Your task to perform on an android device: install app "Paramount+ | Peak Streaming" Image 0: 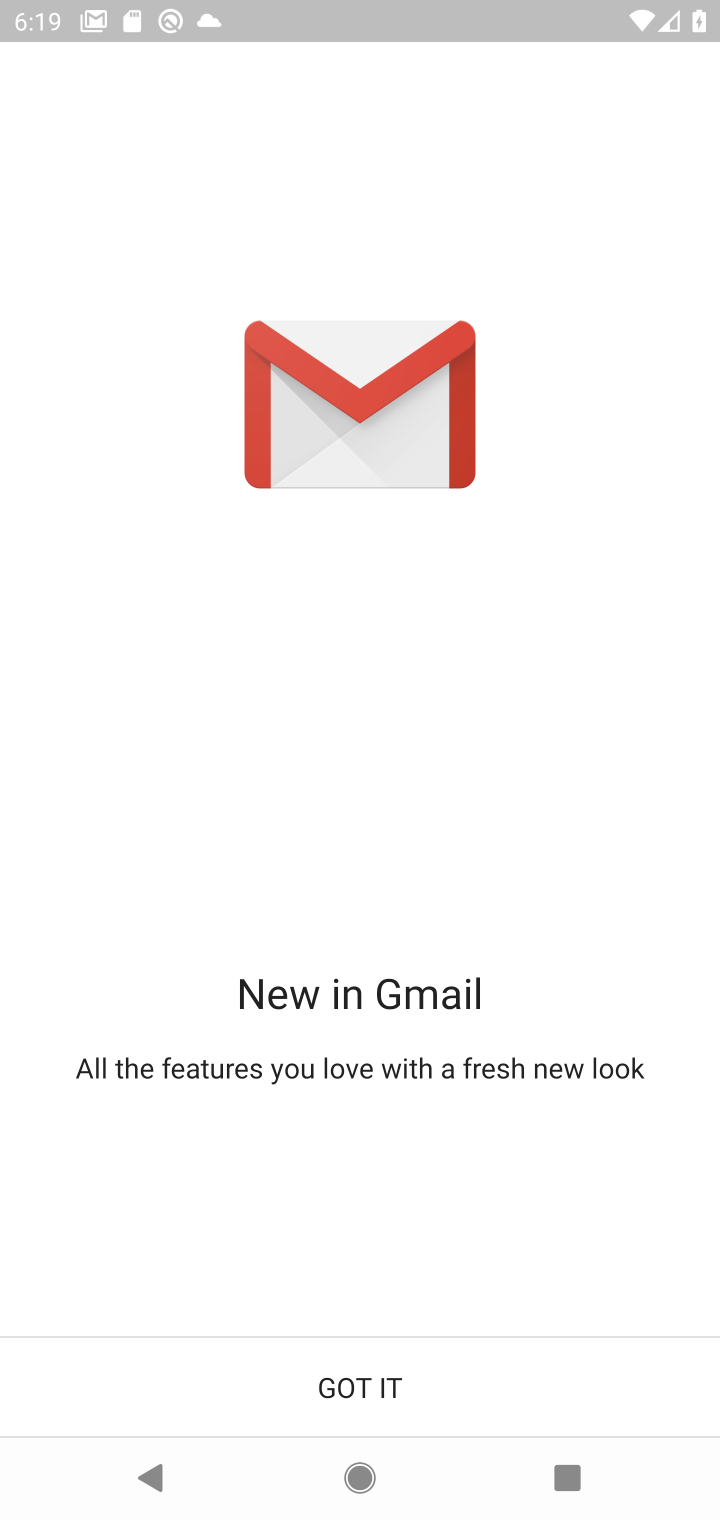
Step 0: drag from (475, 628) to (556, 367)
Your task to perform on an android device: install app "Paramount+ | Peak Streaming" Image 1: 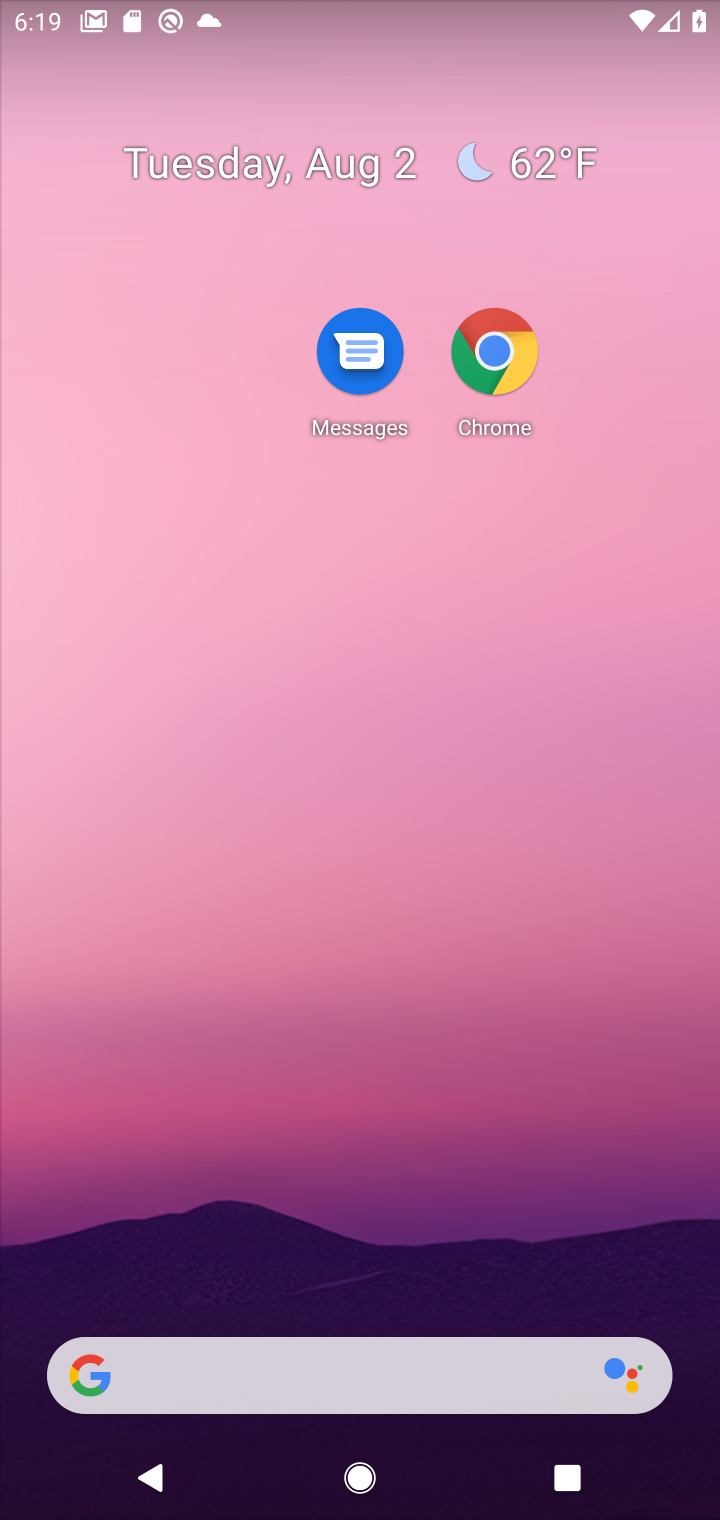
Step 1: drag from (362, 992) to (411, 246)
Your task to perform on an android device: install app "Paramount+ | Peak Streaming" Image 2: 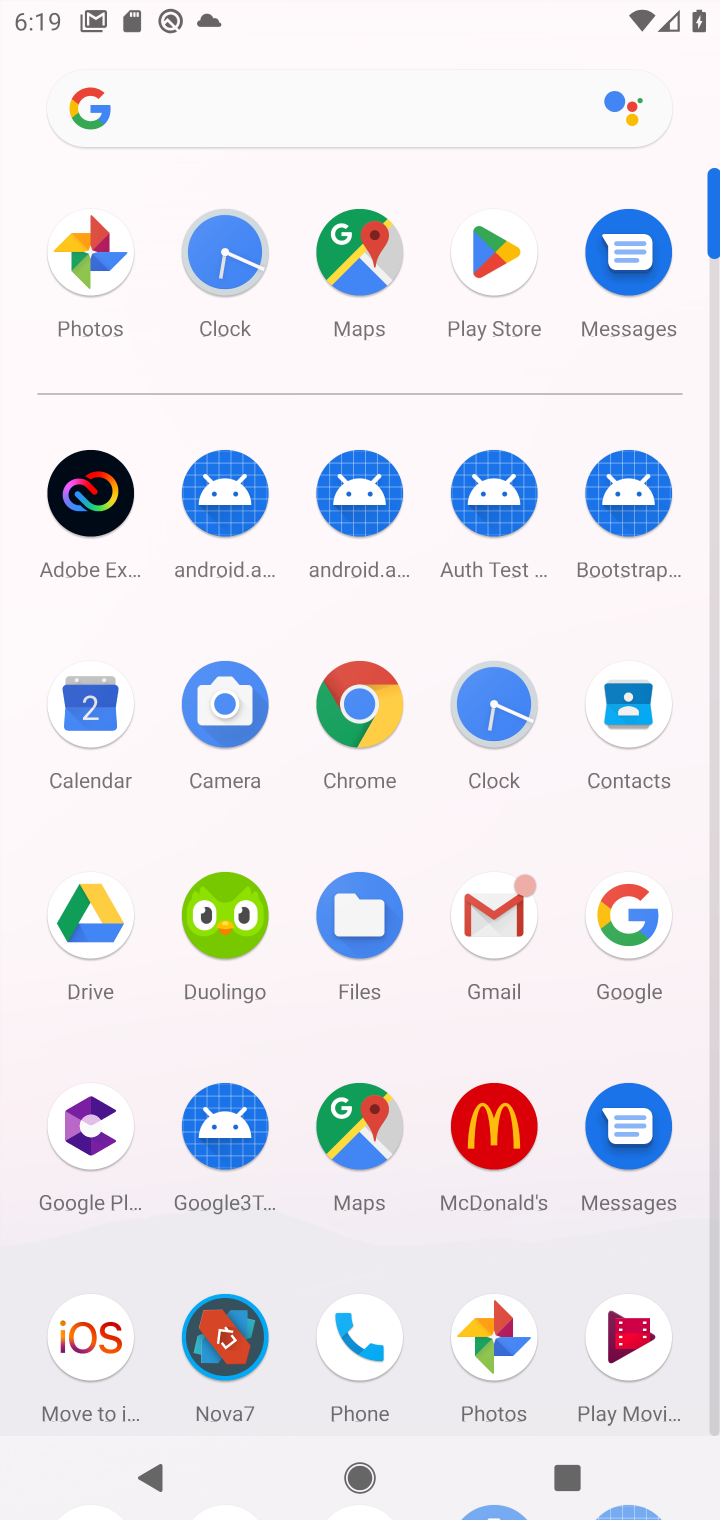
Step 2: click (496, 270)
Your task to perform on an android device: install app "Paramount+ | Peak Streaming" Image 3: 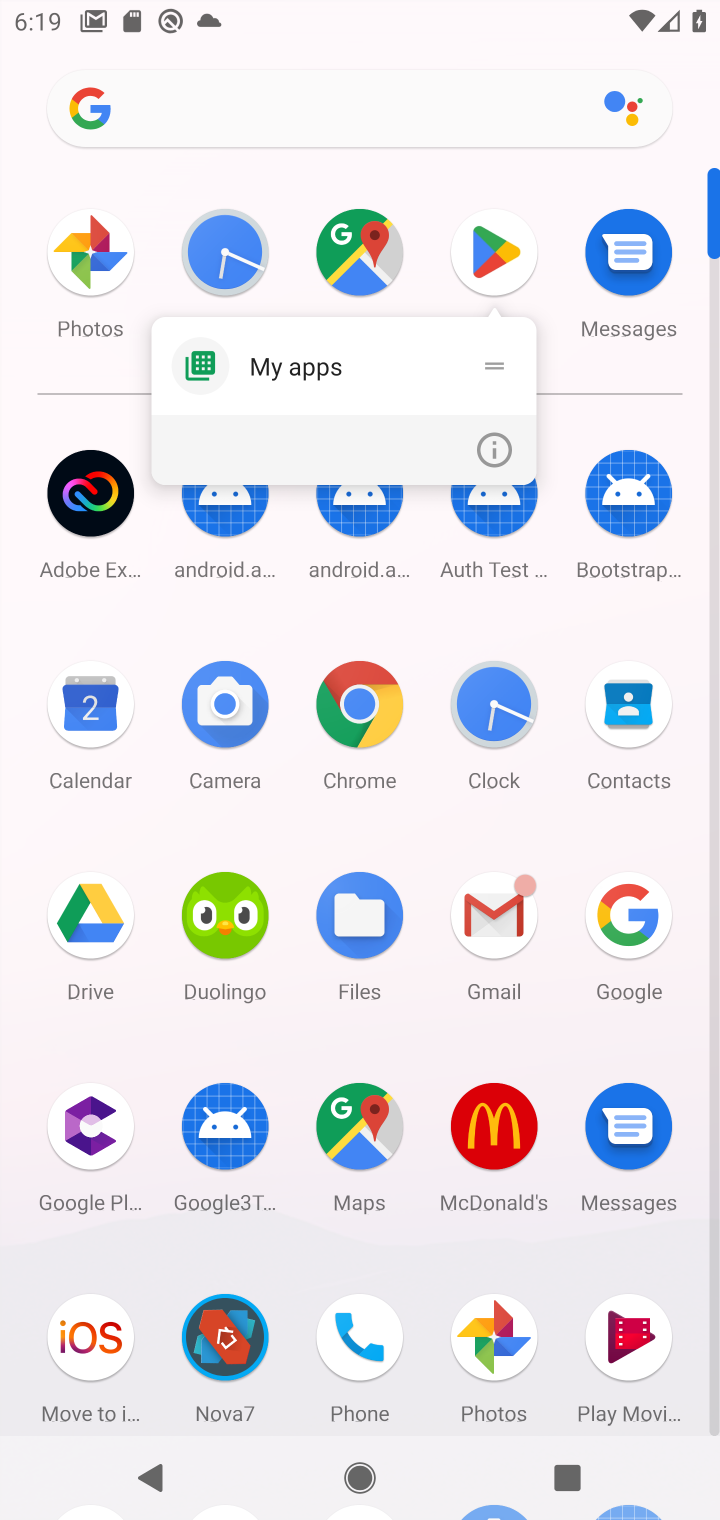
Step 3: click (481, 450)
Your task to perform on an android device: install app "Paramount+ | Peak Streaming" Image 4: 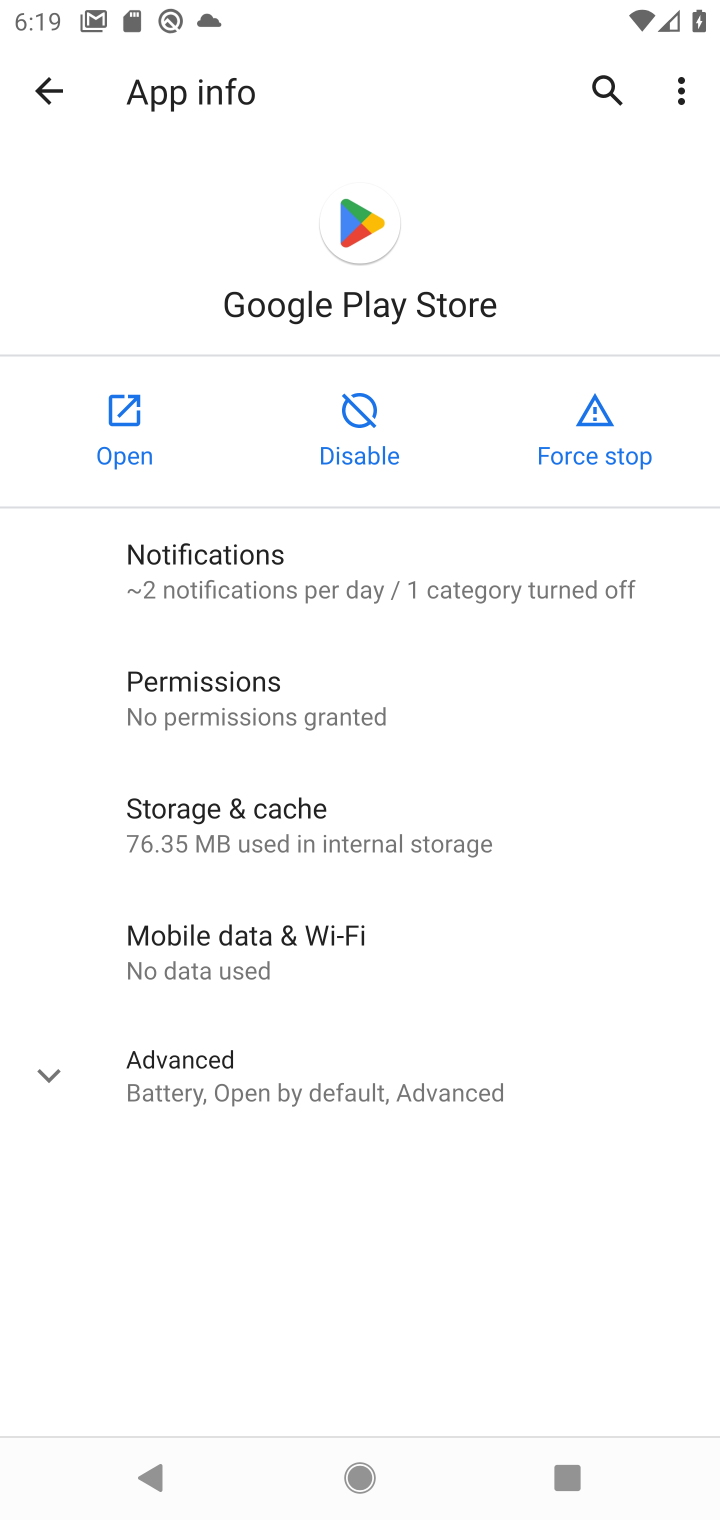
Step 4: click (111, 442)
Your task to perform on an android device: install app "Paramount+ | Peak Streaming" Image 5: 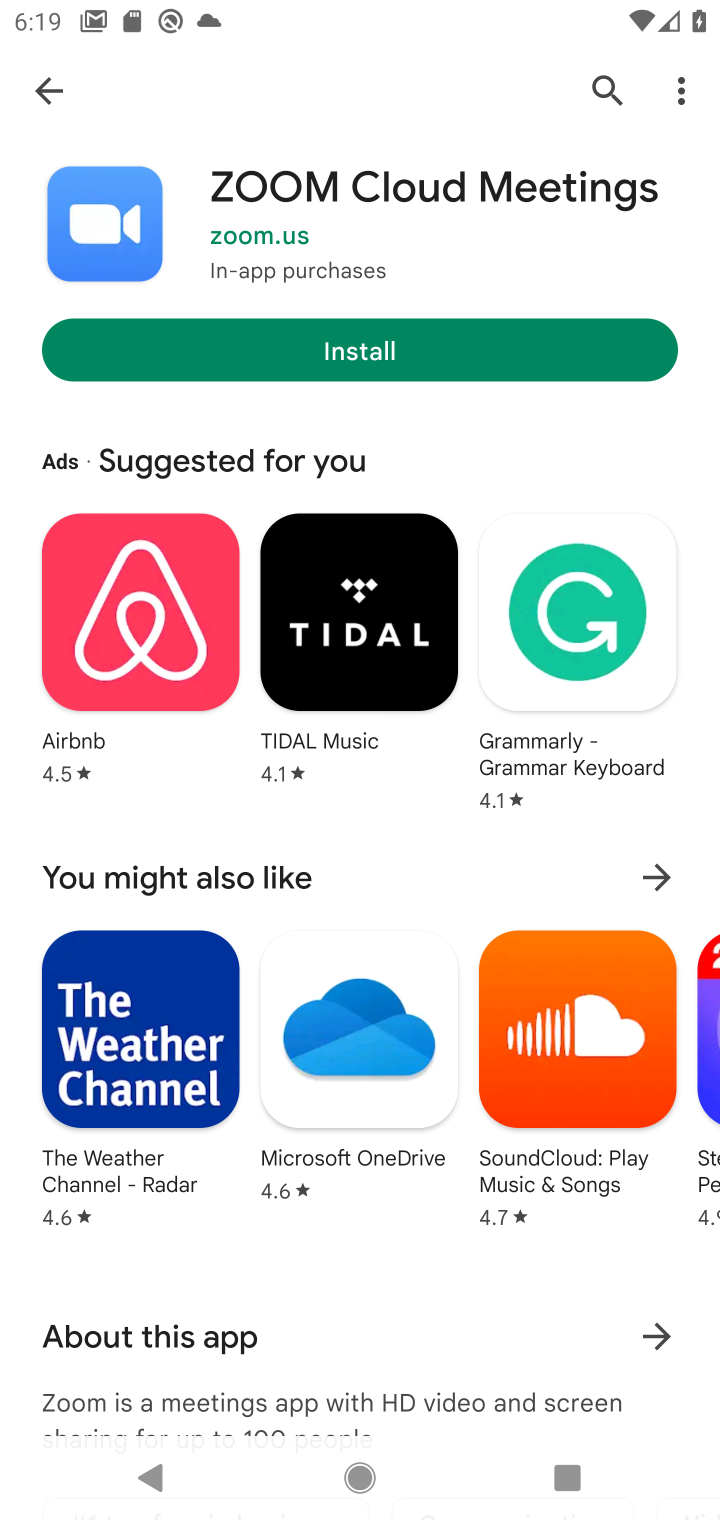
Step 5: click (605, 89)
Your task to perform on an android device: install app "Paramount+ | Peak Streaming" Image 6: 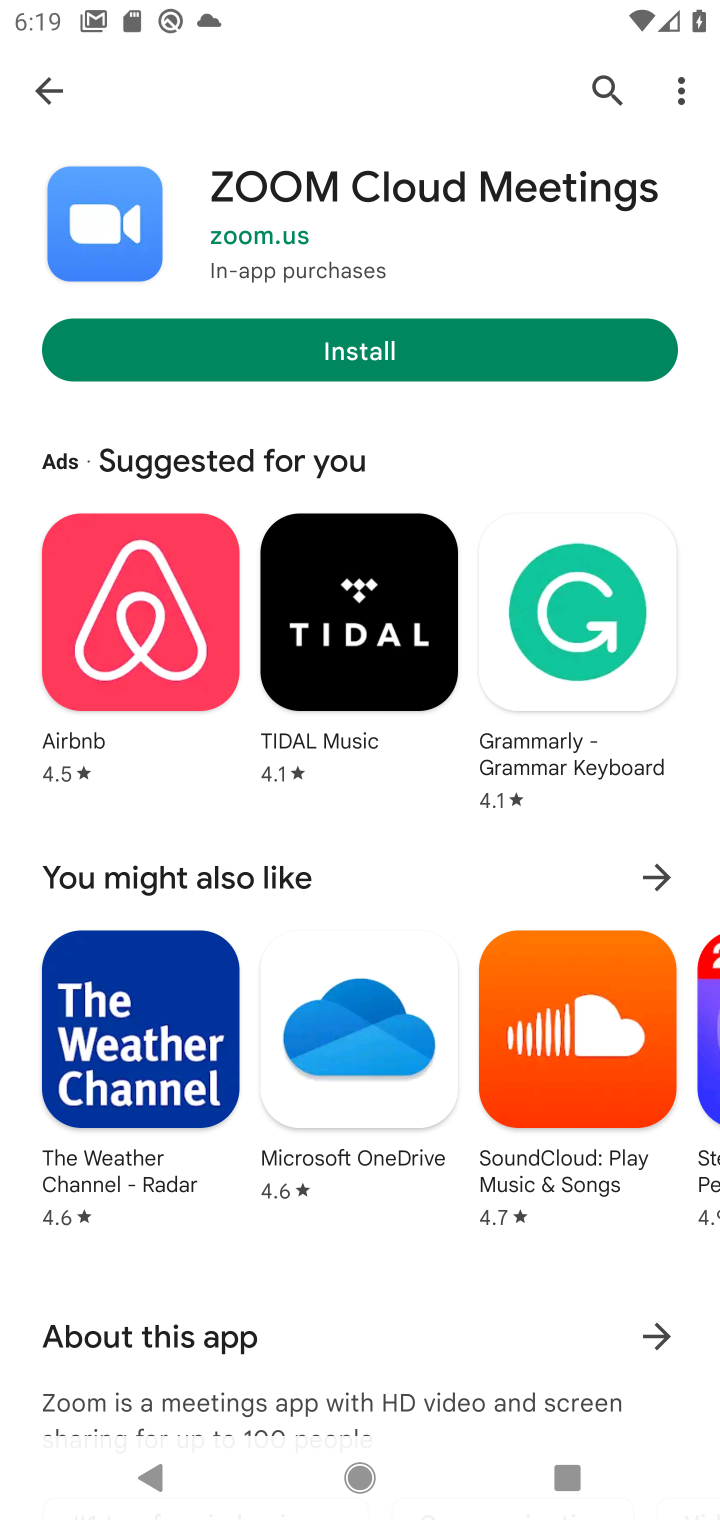
Step 6: click (589, 87)
Your task to perform on an android device: install app "Paramount+ | Peak Streaming" Image 7: 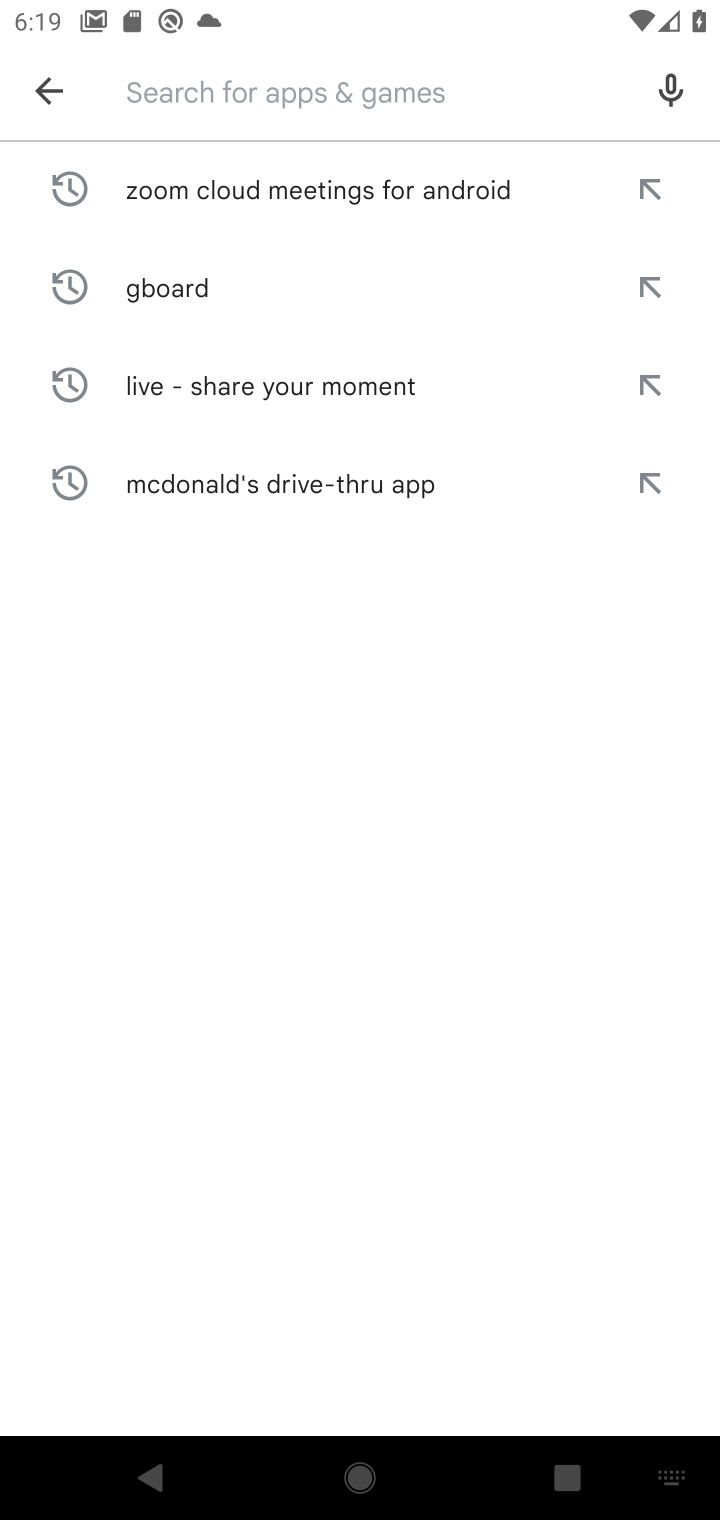
Step 7: click (224, 96)
Your task to perform on an android device: install app "Paramount+ | Peak Streaming" Image 8: 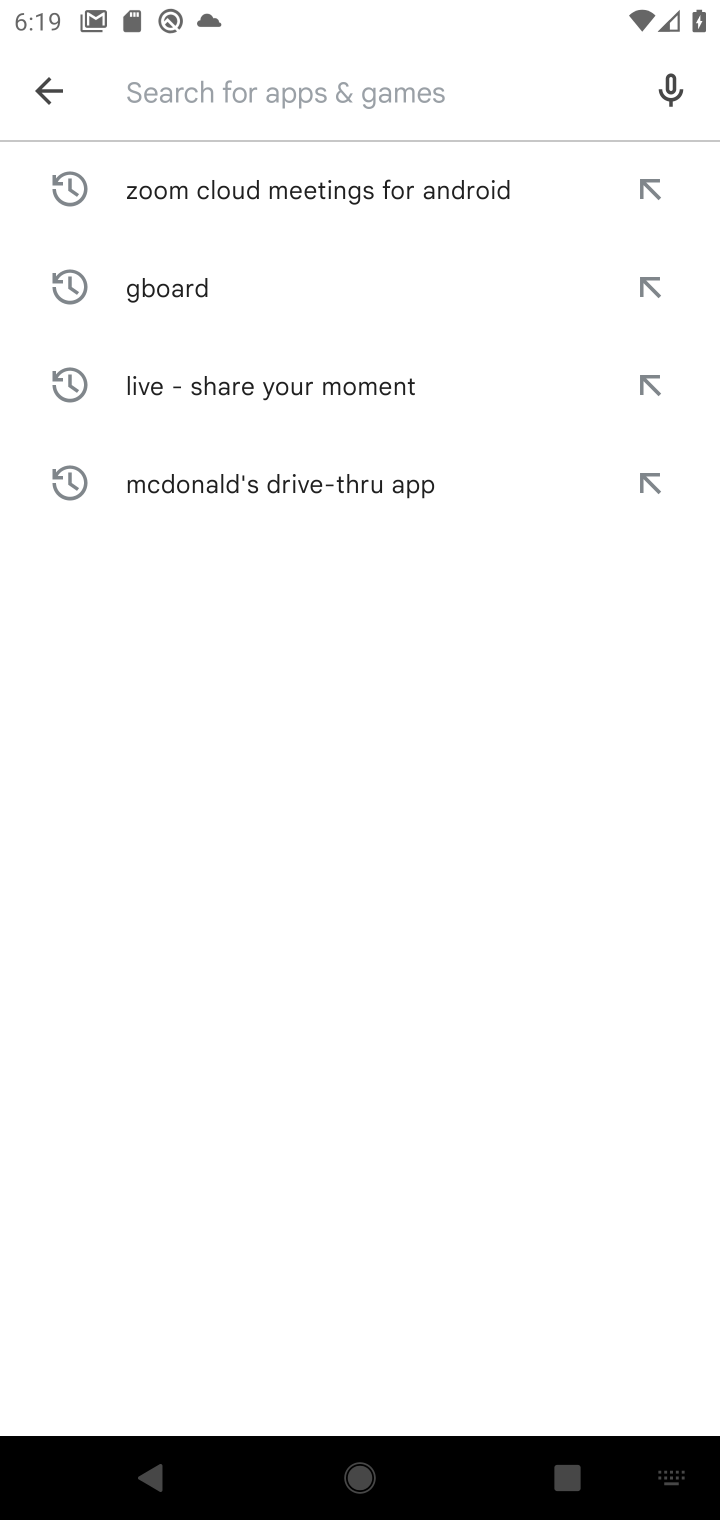
Step 8: type "Paramount+ | Peak Streaming"
Your task to perform on an android device: install app "Paramount+ | Peak Streaming" Image 9: 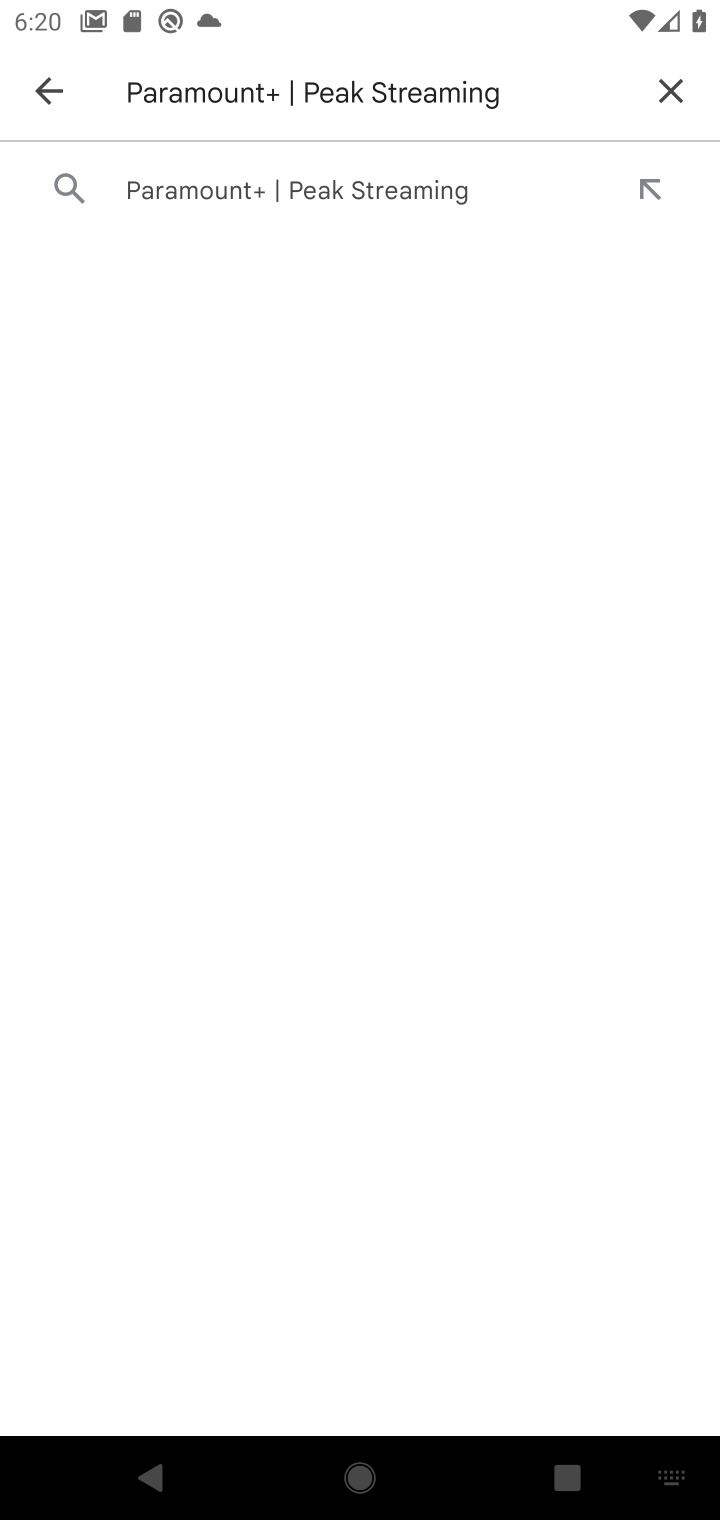
Step 9: click (206, 188)
Your task to perform on an android device: install app "Paramount+ | Peak Streaming" Image 10: 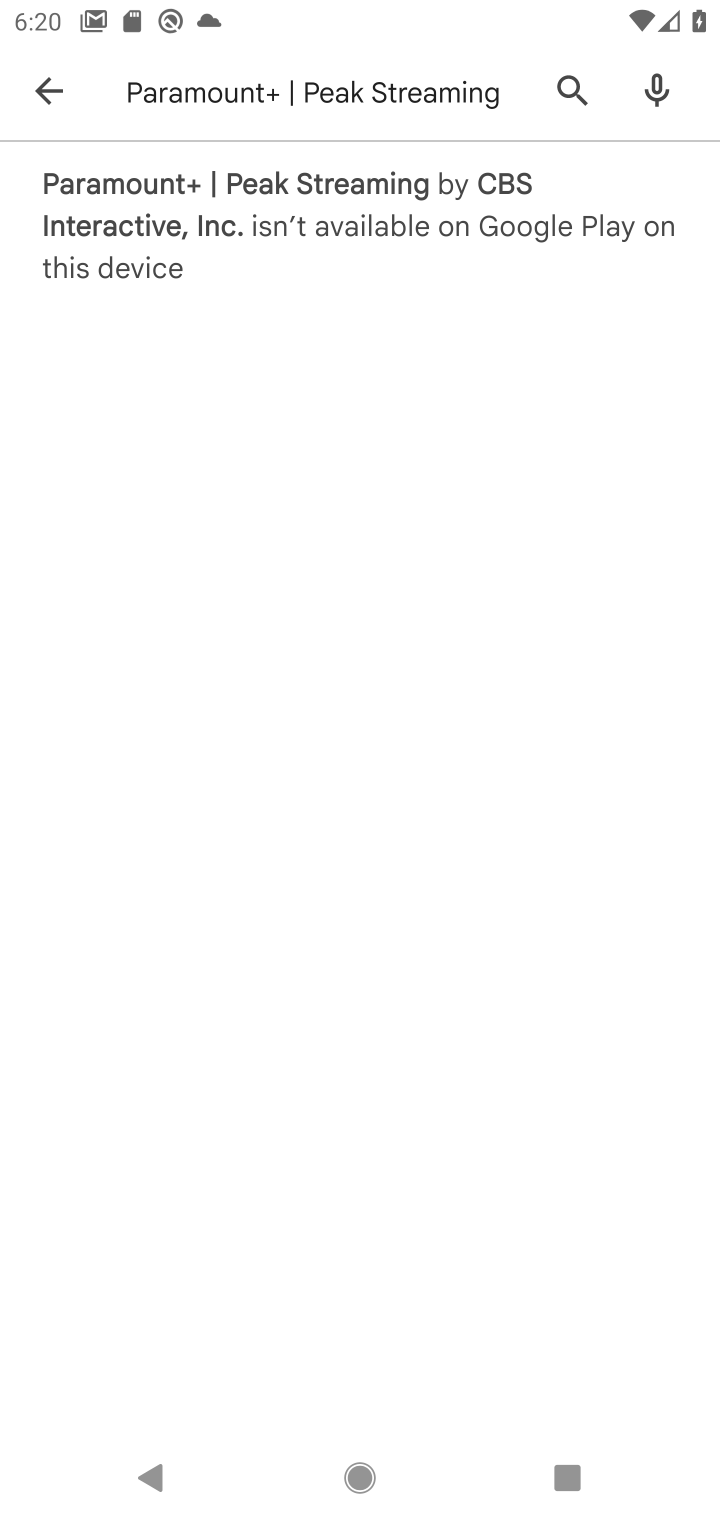
Step 10: click (241, 233)
Your task to perform on an android device: install app "Paramount+ | Peak Streaming" Image 11: 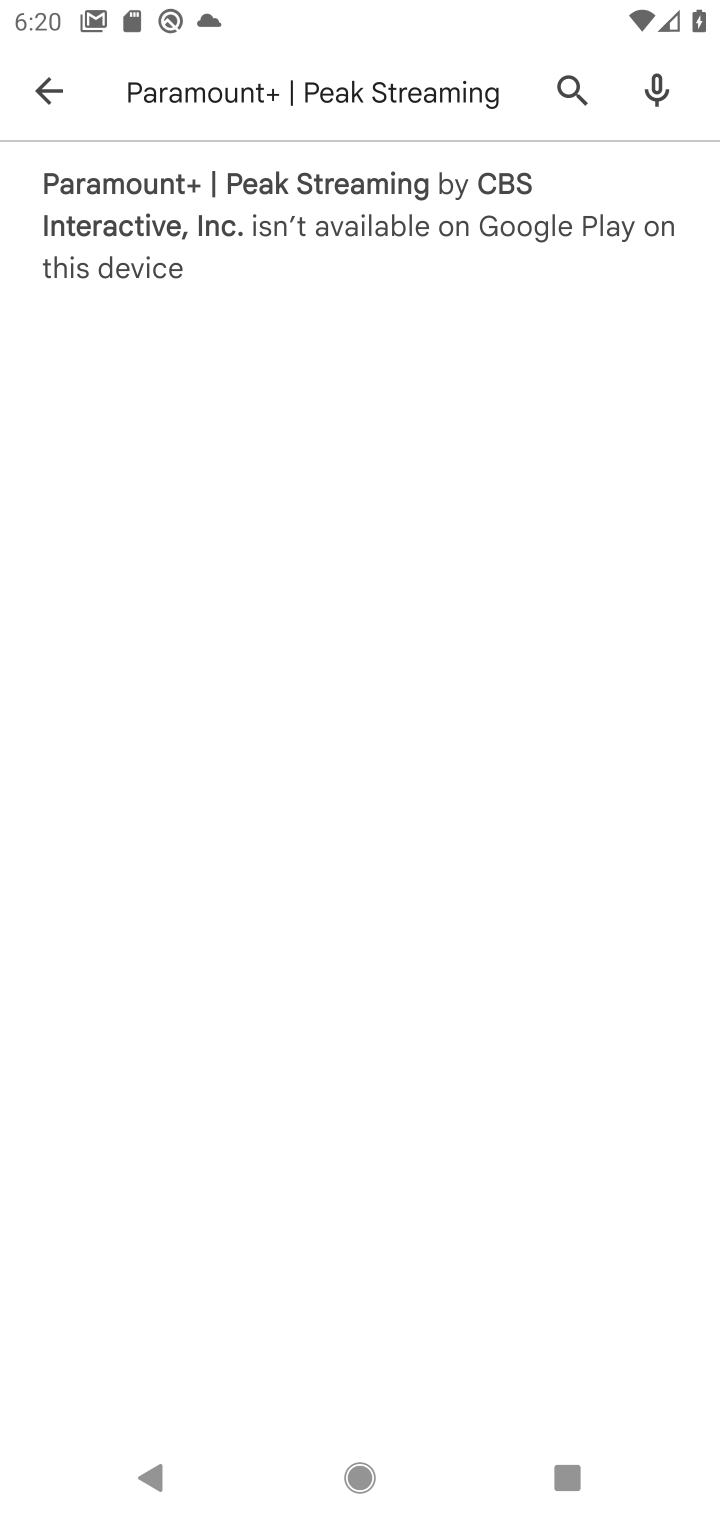
Step 11: click (220, 212)
Your task to perform on an android device: install app "Paramount+ | Peak Streaming" Image 12: 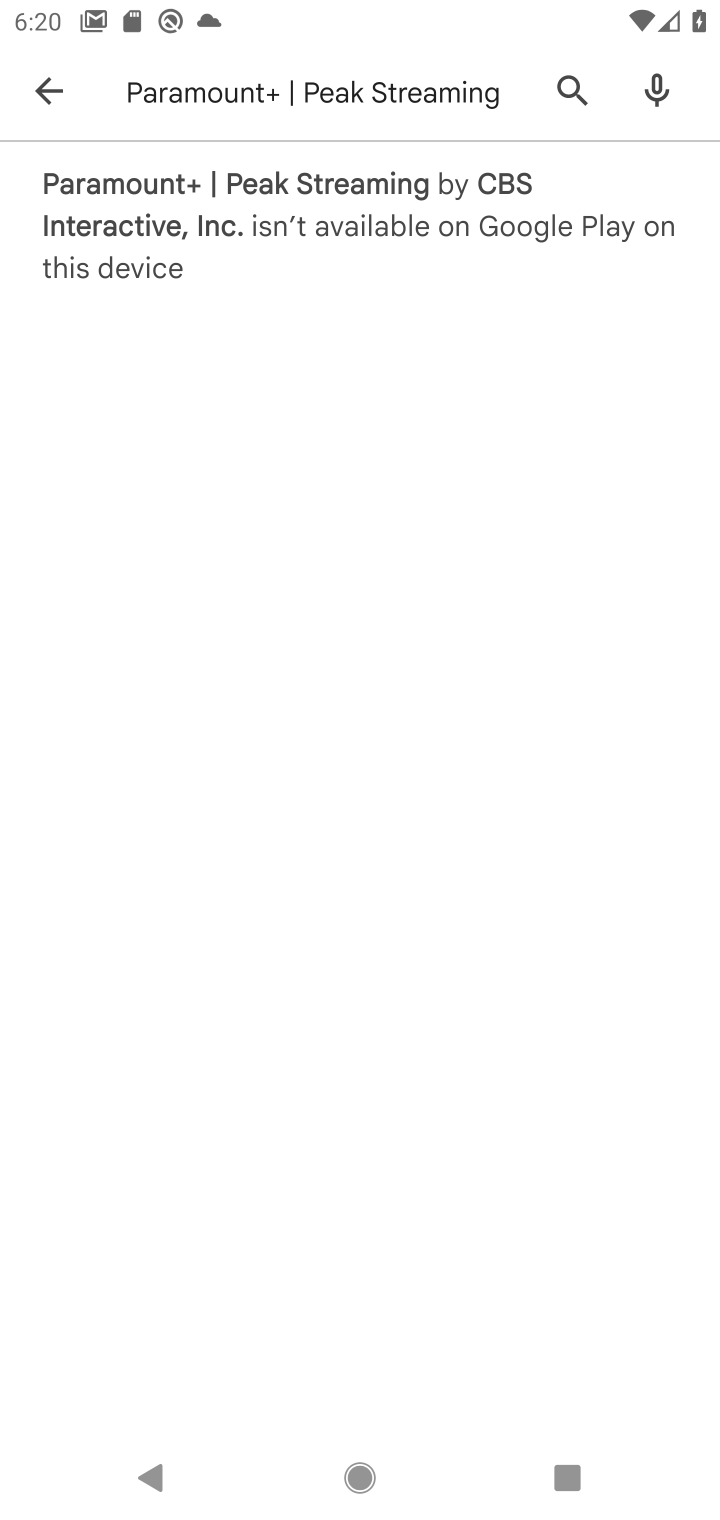
Step 12: click (234, 215)
Your task to perform on an android device: install app "Paramount+ | Peak Streaming" Image 13: 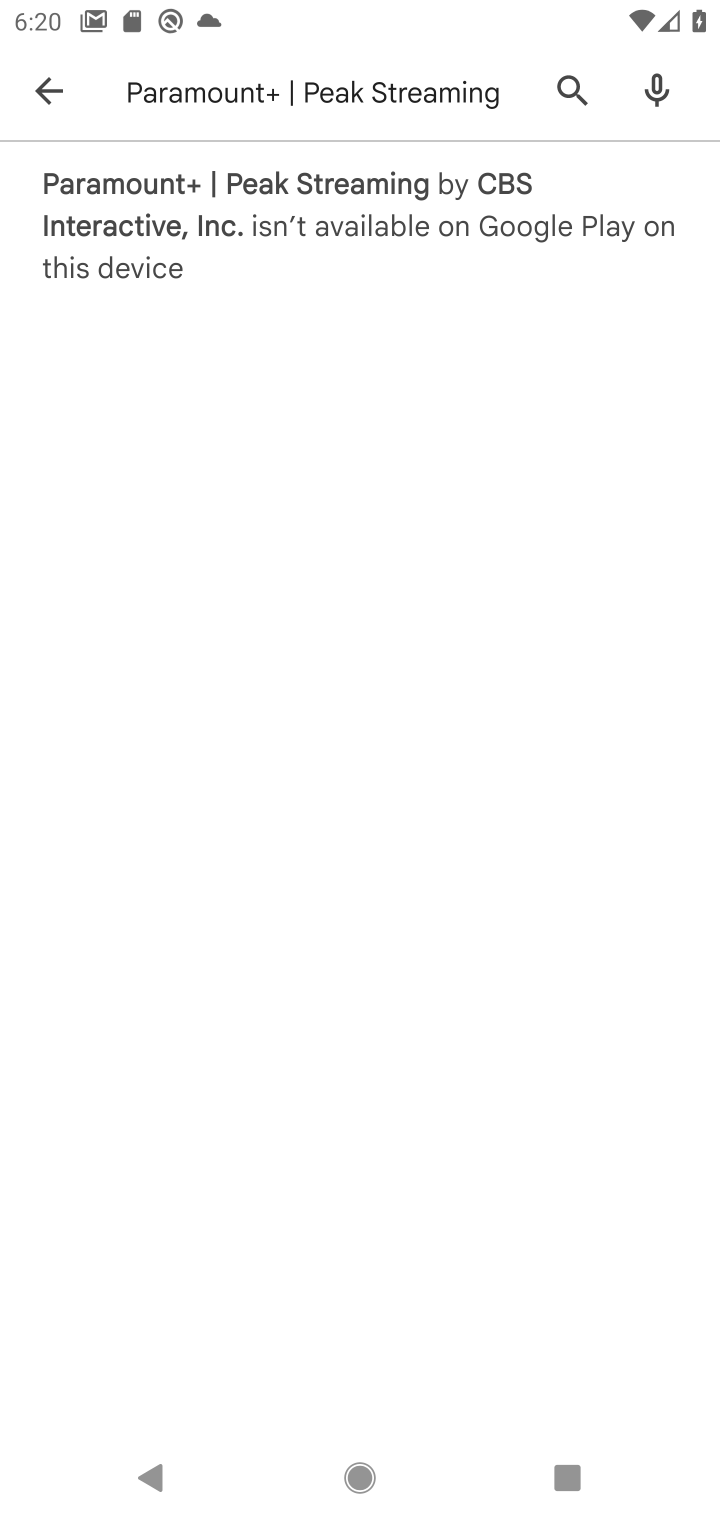
Step 13: click (131, 181)
Your task to perform on an android device: install app "Paramount+ | Peak Streaming" Image 14: 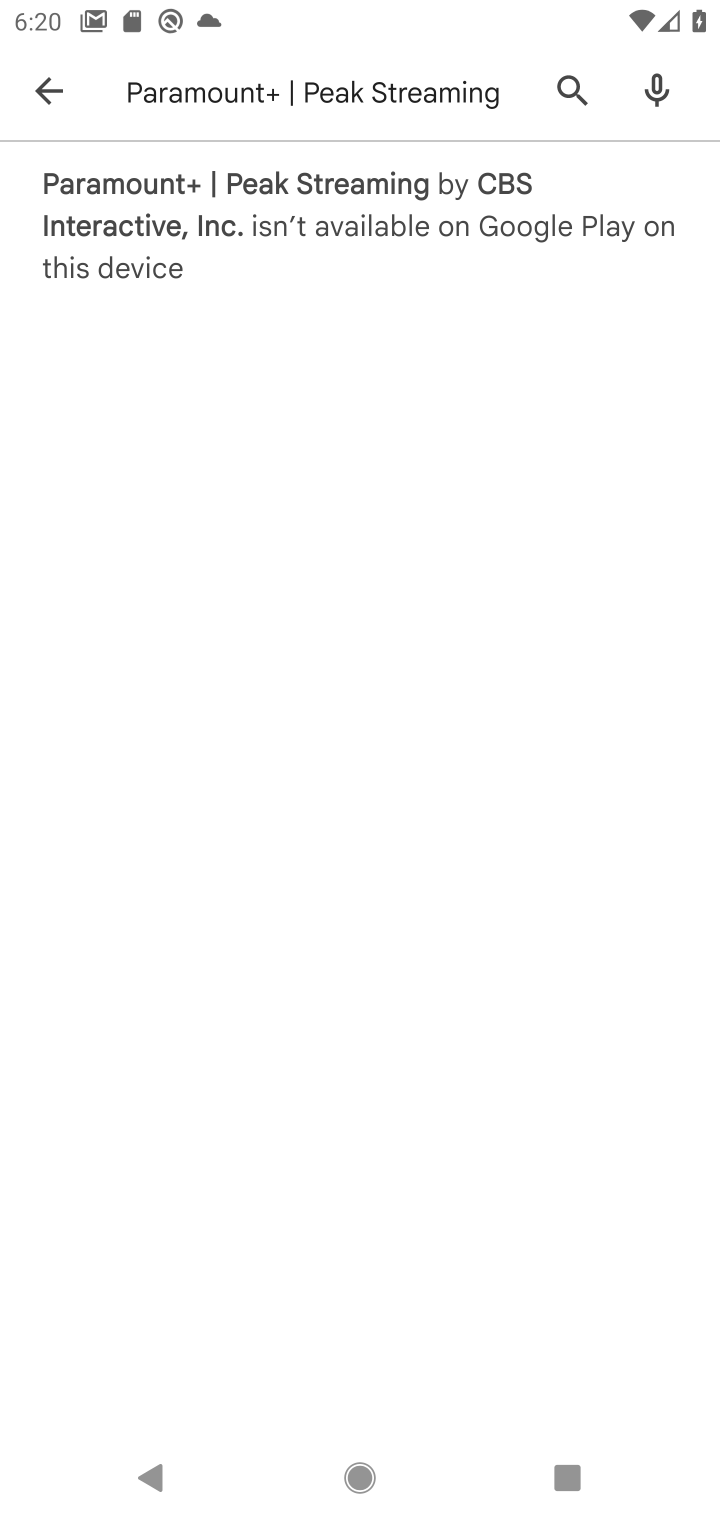
Step 14: click (291, 214)
Your task to perform on an android device: install app "Paramount+ | Peak Streaming" Image 15: 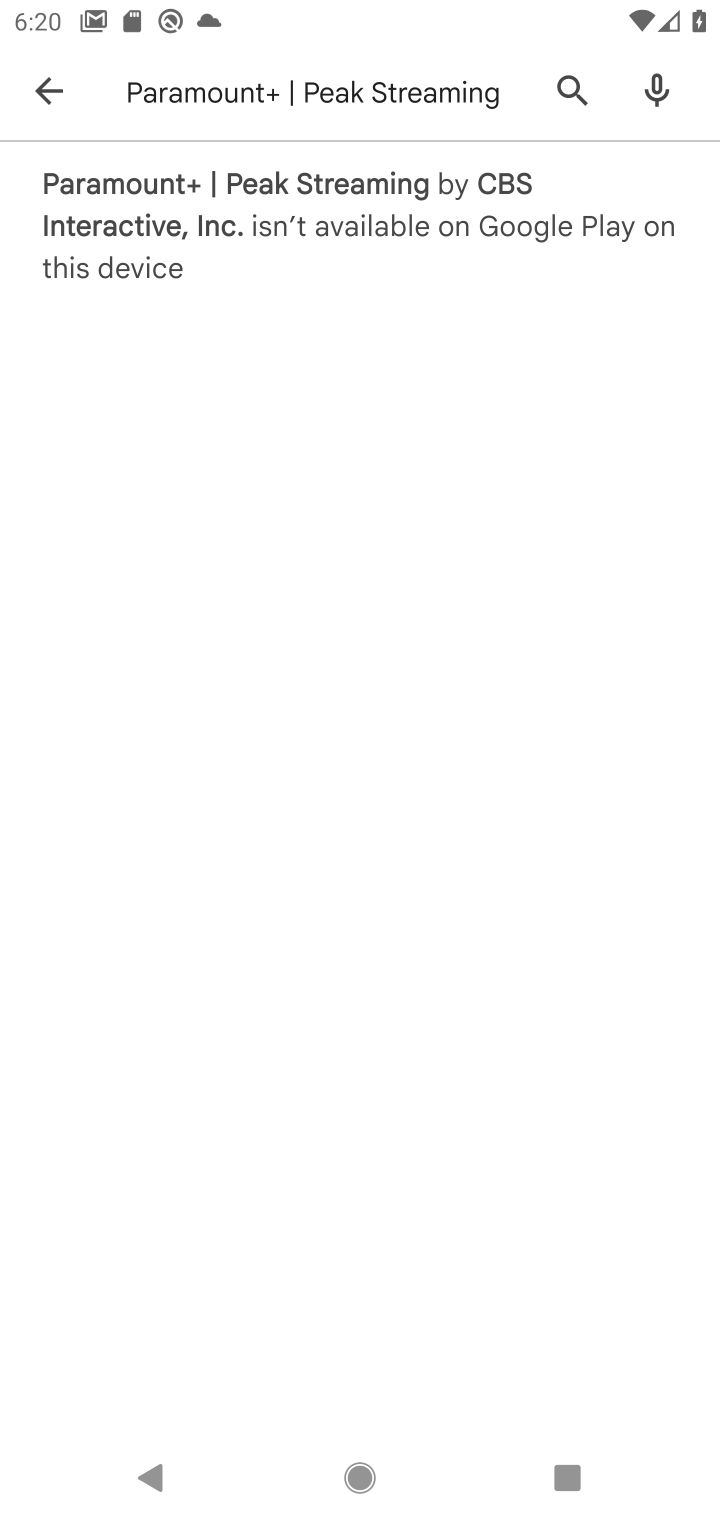
Step 15: click (192, 196)
Your task to perform on an android device: install app "Paramount+ | Peak Streaming" Image 16: 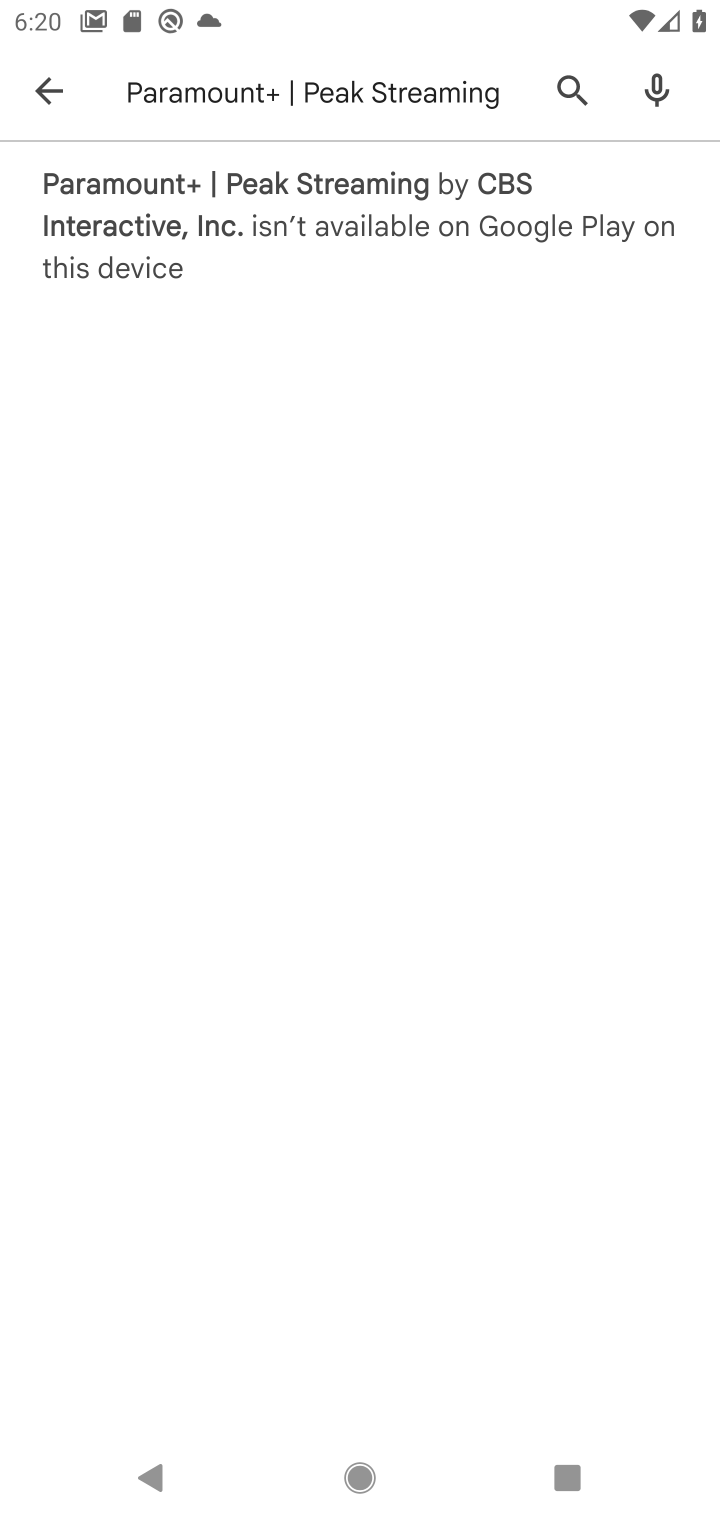
Step 16: click (201, 196)
Your task to perform on an android device: install app "Paramount+ | Peak Streaming" Image 17: 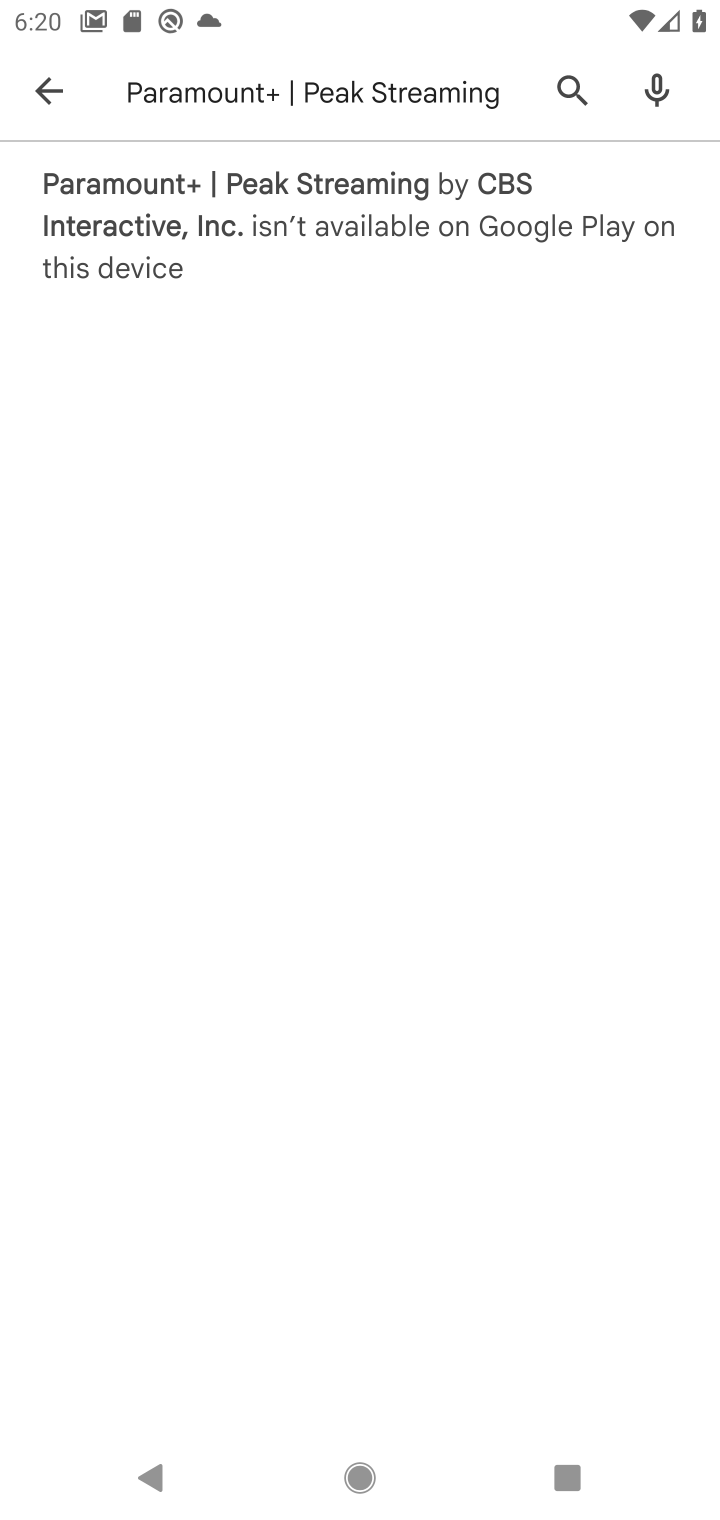
Step 17: click (243, 187)
Your task to perform on an android device: install app "Paramount+ | Peak Streaming" Image 18: 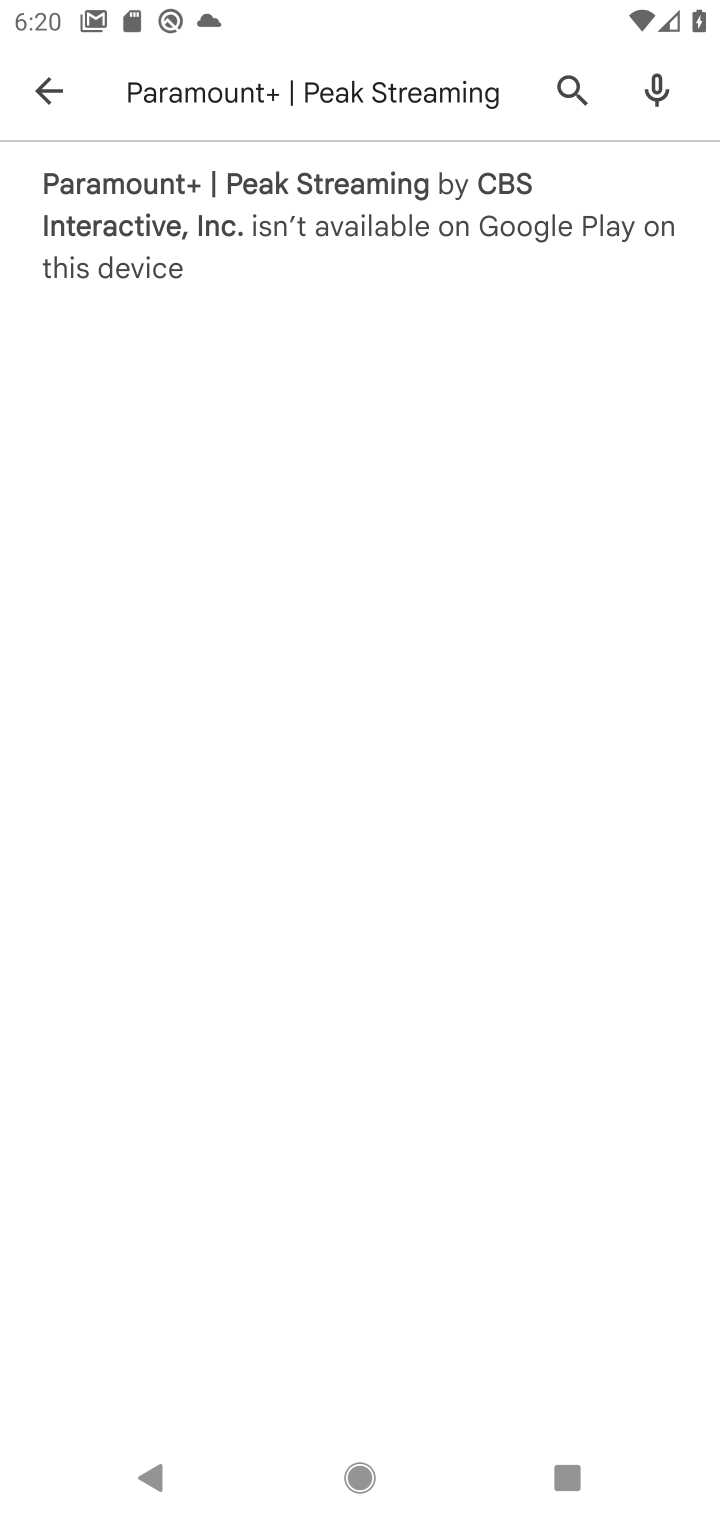
Step 18: click (243, 187)
Your task to perform on an android device: install app "Paramount+ | Peak Streaming" Image 19: 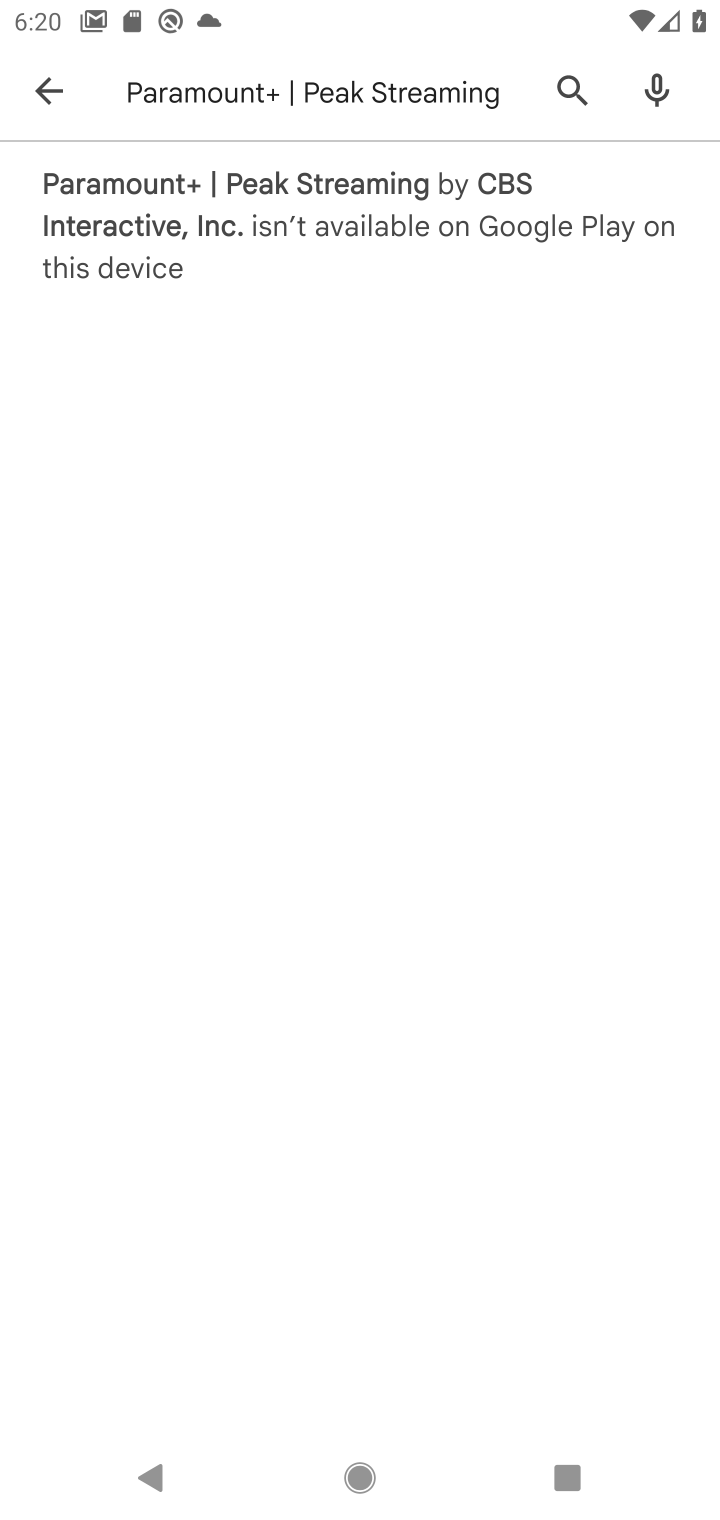
Step 19: click (179, 194)
Your task to perform on an android device: install app "Paramount+ | Peak Streaming" Image 20: 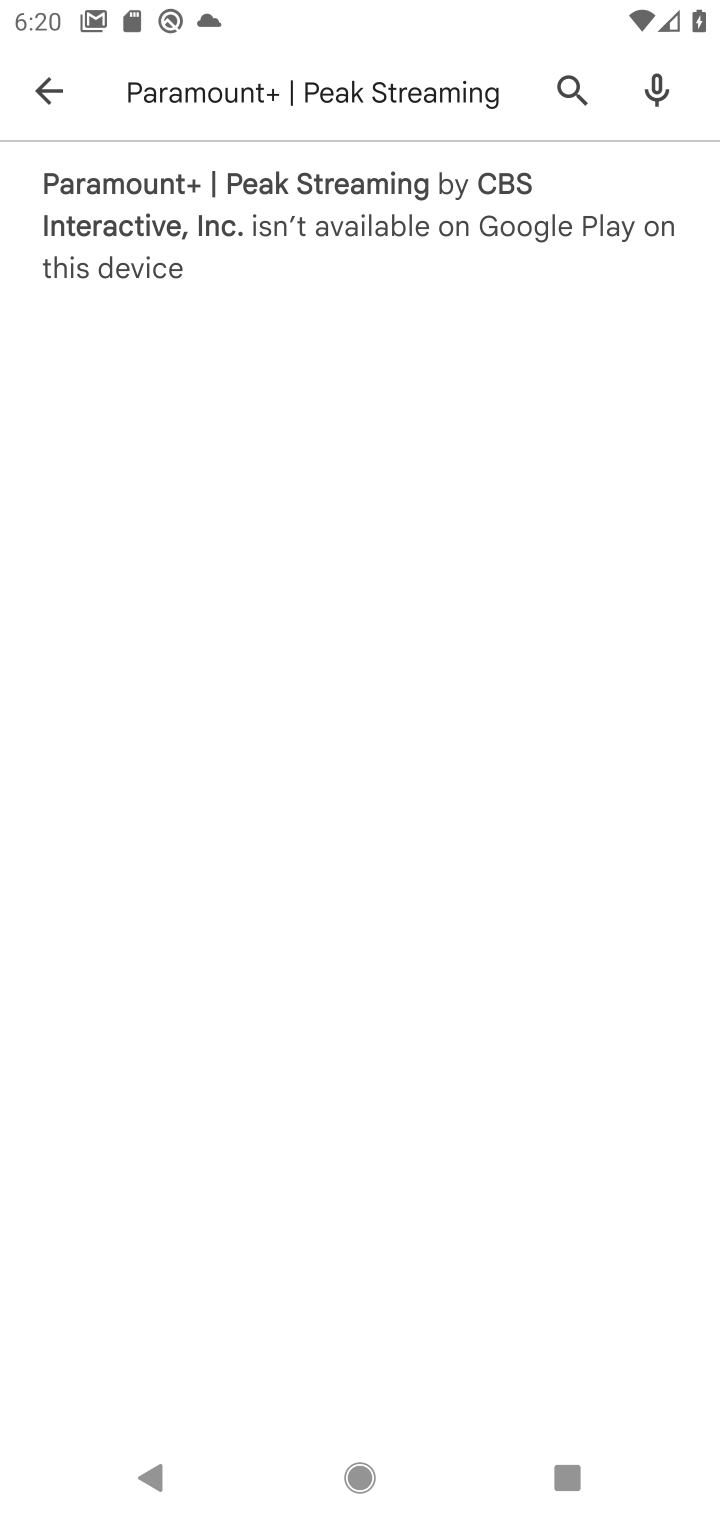
Step 20: click (181, 201)
Your task to perform on an android device: install app "Paramount+ | Peak Streaming" Image 21: 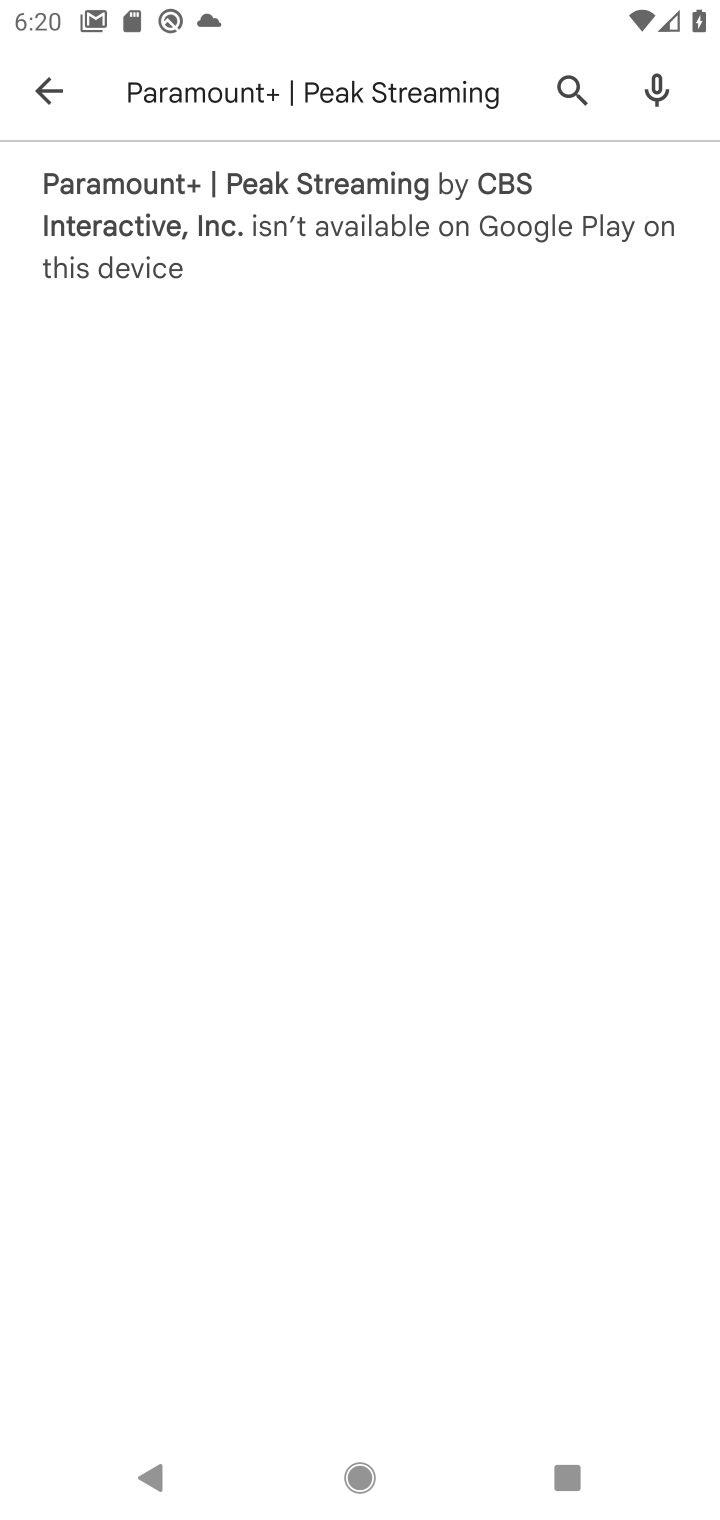
Step 21: click (146, 217)
Your task to perform on an android device: install app "Paramount+ | Peak Streaming" Image 22: 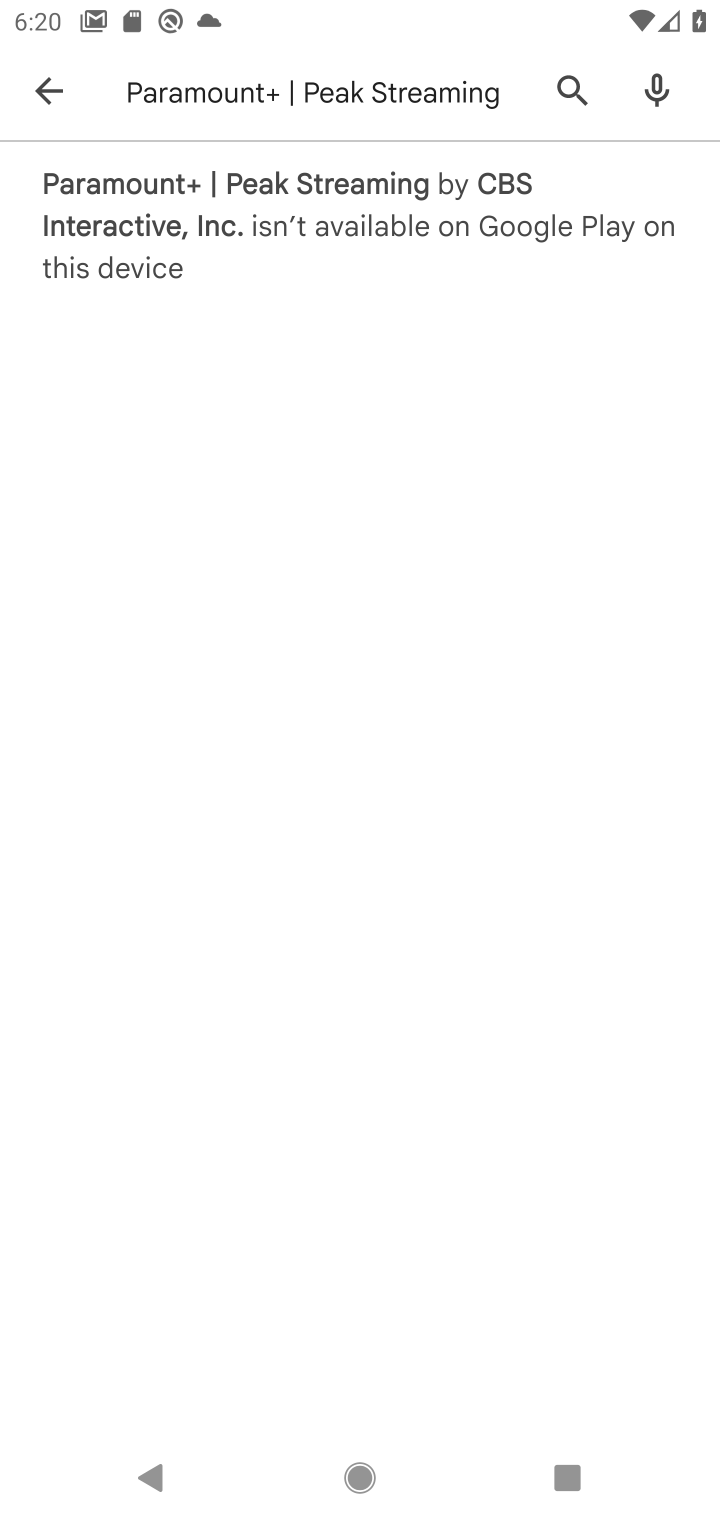
Step 22: click (146, 217)
Your task to perform on an android device: install app "Paramount+ | Peak Streaming" Image 23: 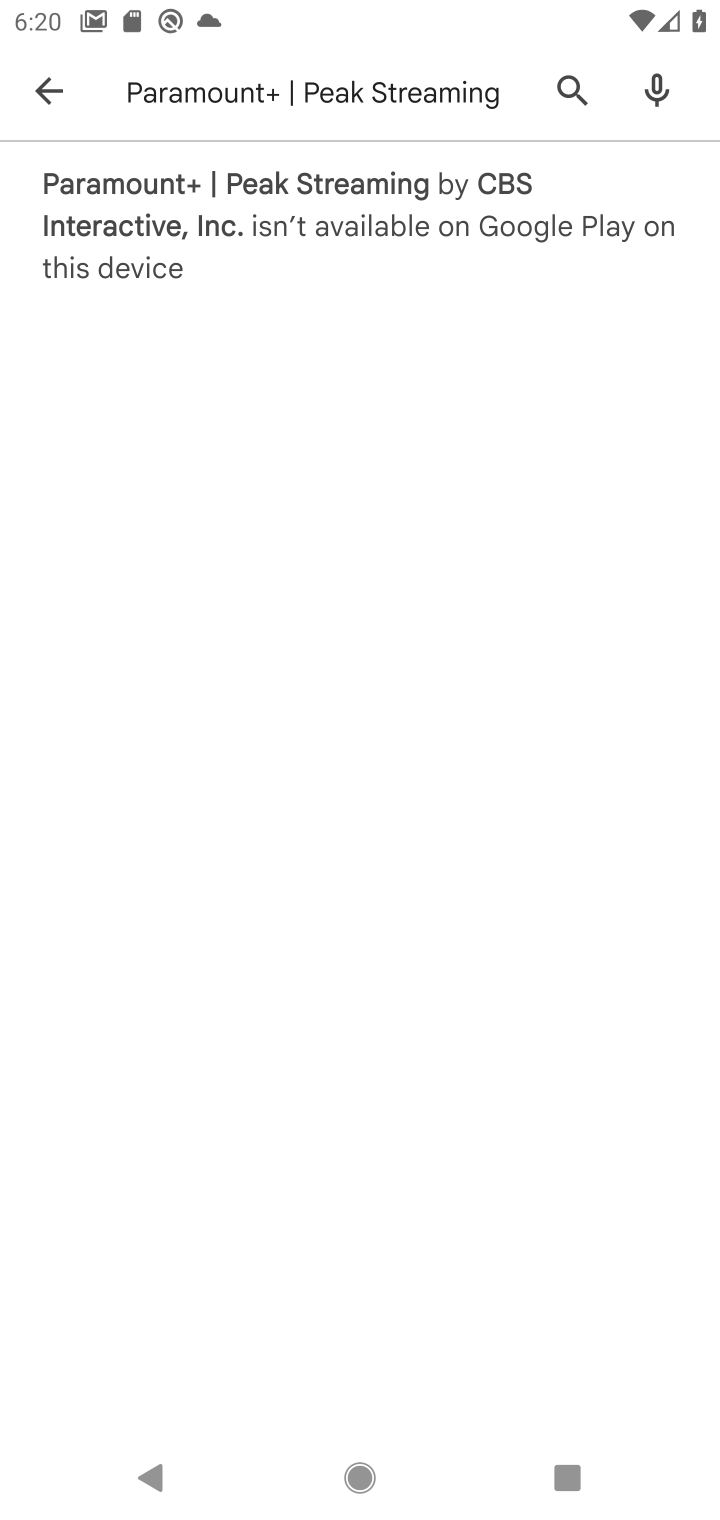
Step 23: click (146, 217)
Your task to perform on an android device: install app "Paramount+ | Peak Streaming" Image 24: 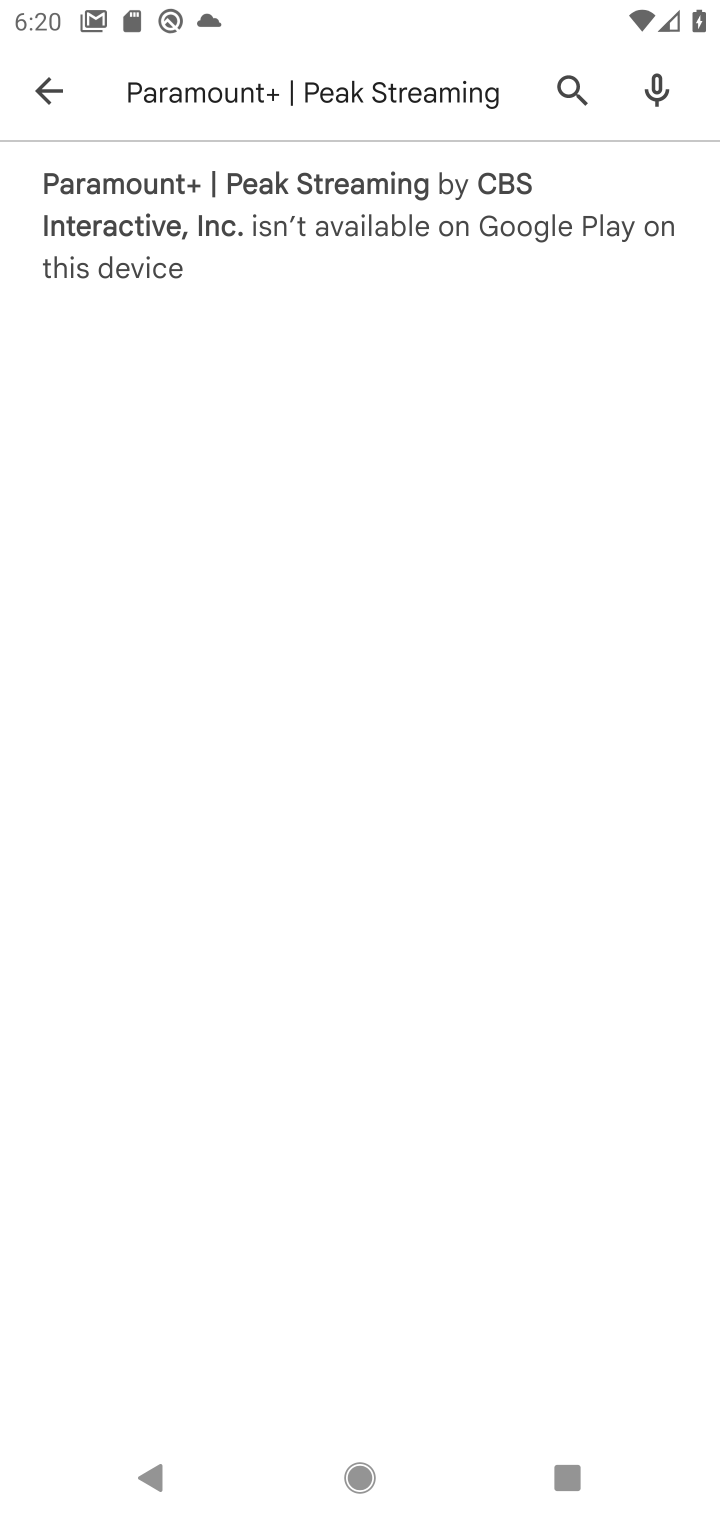
Step 24: click (166, 215)
Your task to perform on an android device: install app "Paramount+ | Peak Streaming" Image 25: 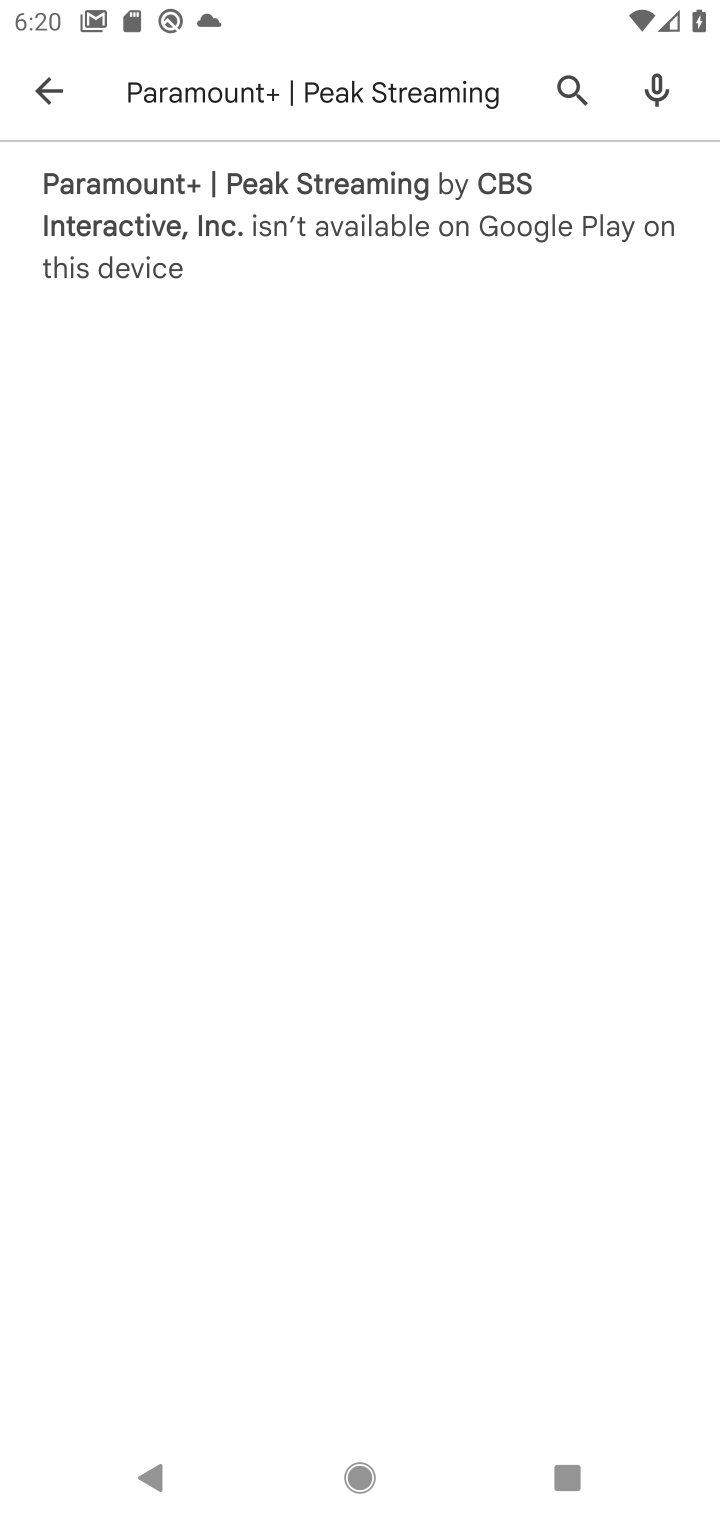
Step 25: click (169, 217)
Your task to perform on an android device: install app "Paramount+ | Peak Streaming" Image 26: 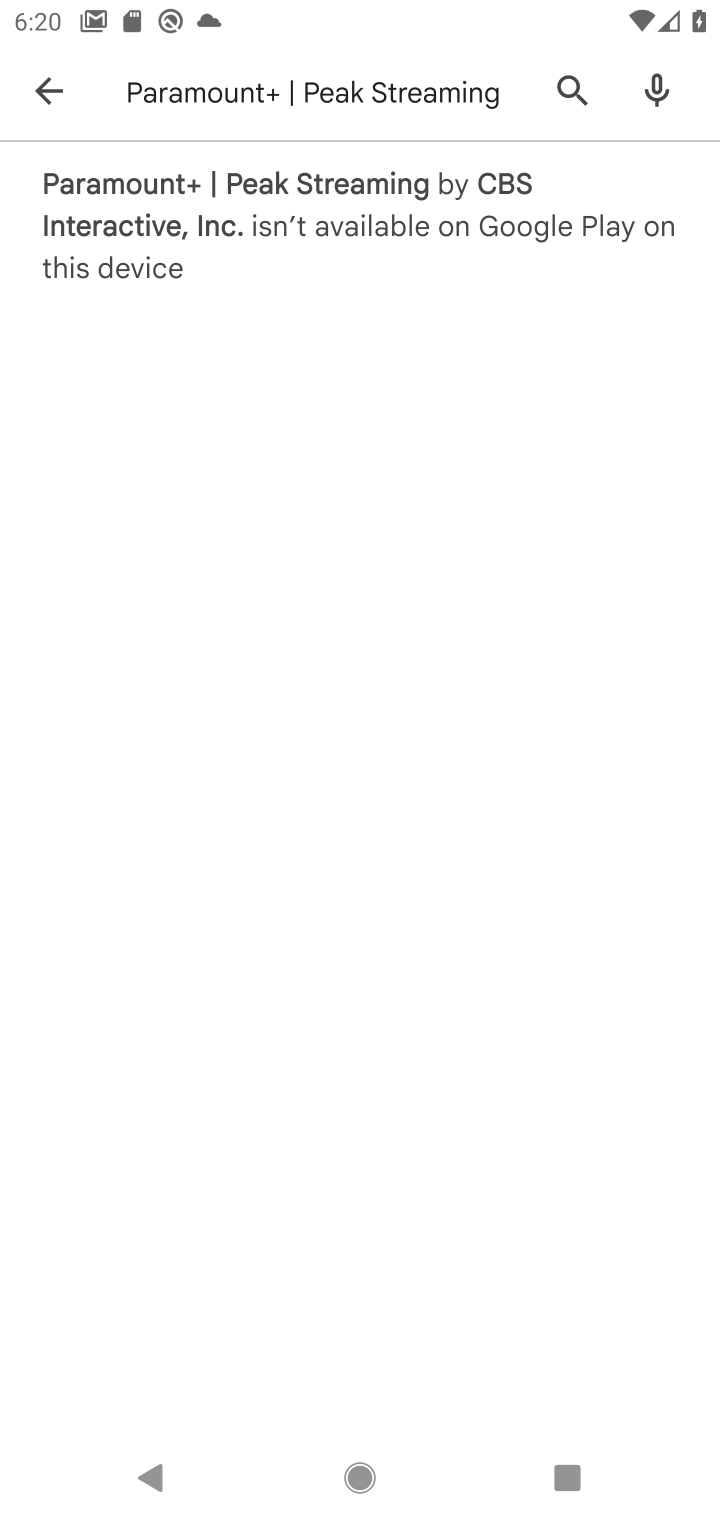
Step 26: click (169, 217)
Your task to perform on an android device: install app "Paramount+ | Peak Streaming" Image 27: 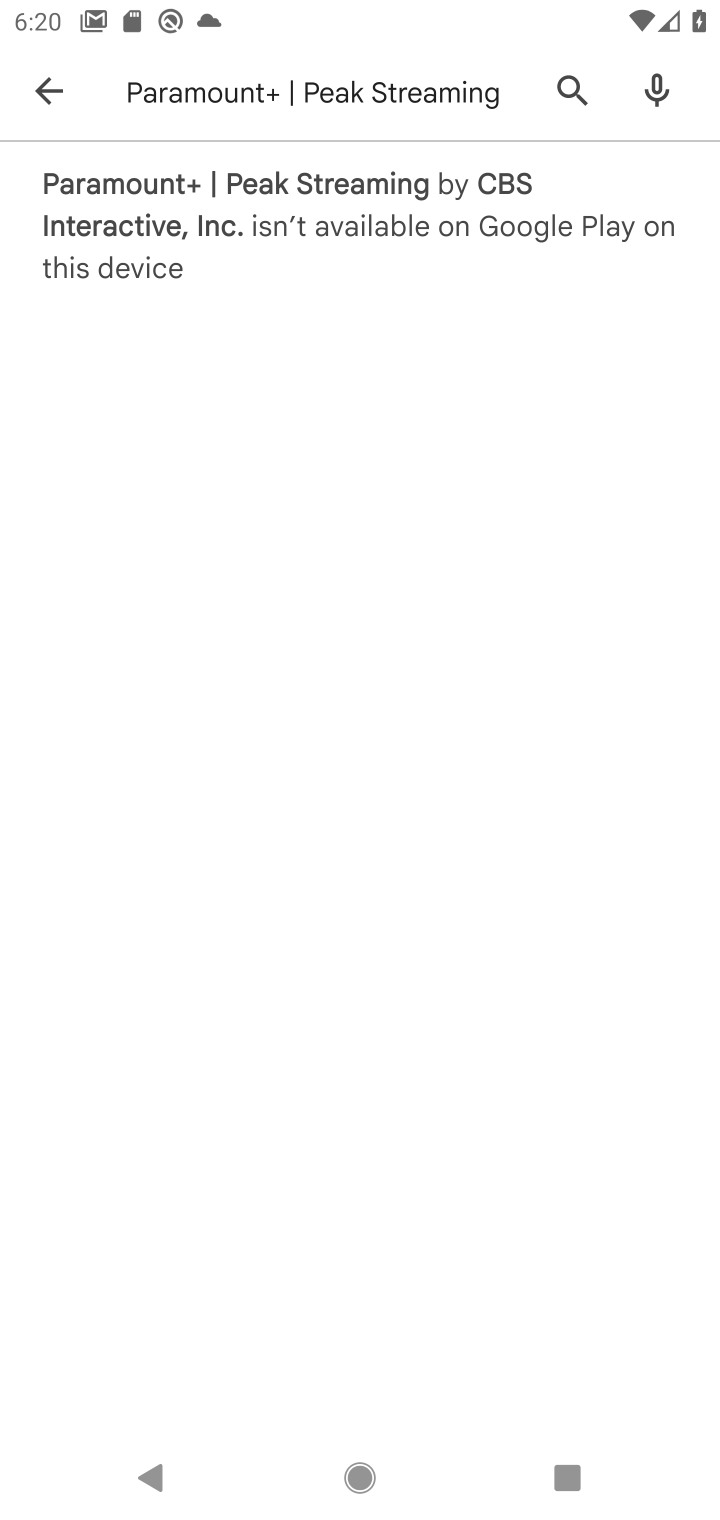
Step 27: click (225, 184)
Your task to perform on an android device: install app "Paramount+ | Peak Streaming" Image 28: 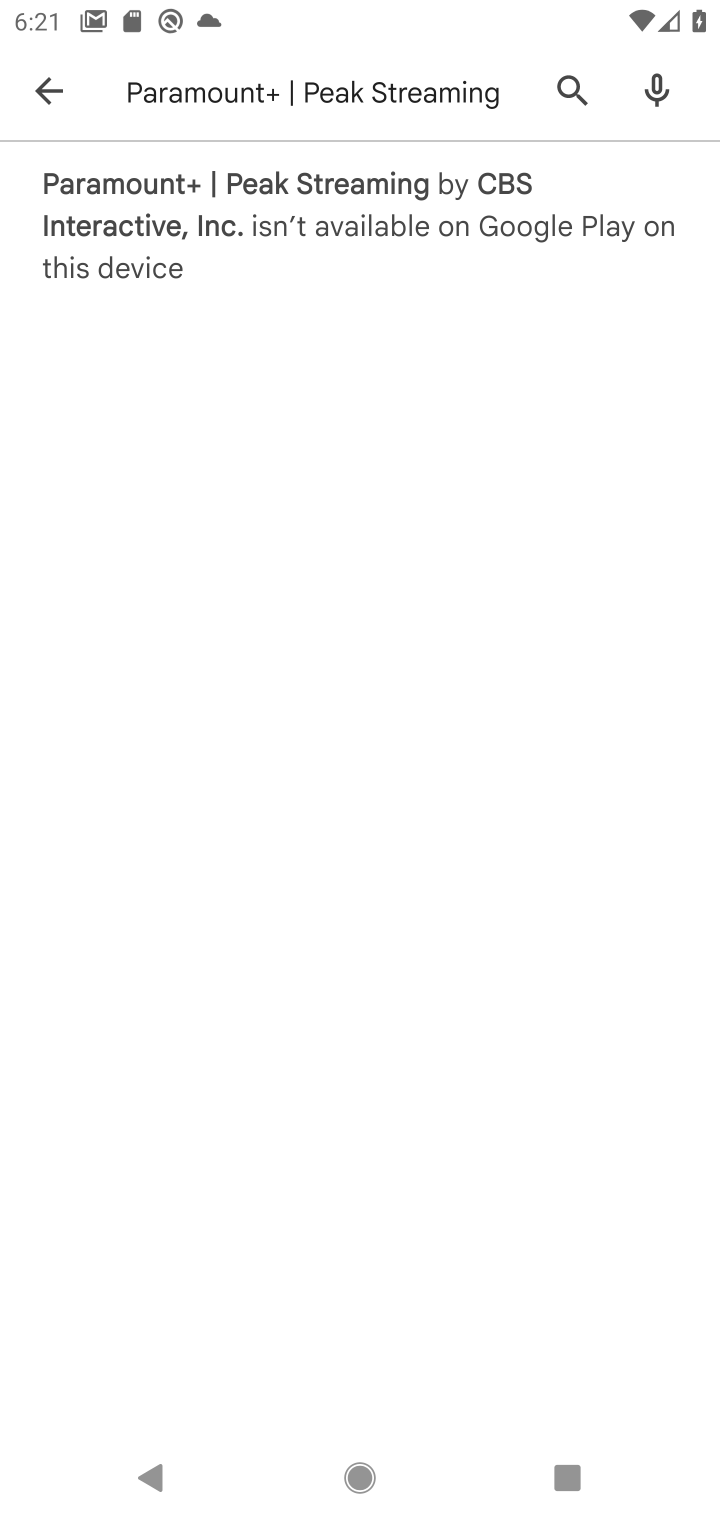
Step 28: click (316, 198)
Your task to perform on an android device: install app "Paramount+ | Peak Streaming" Image 29: 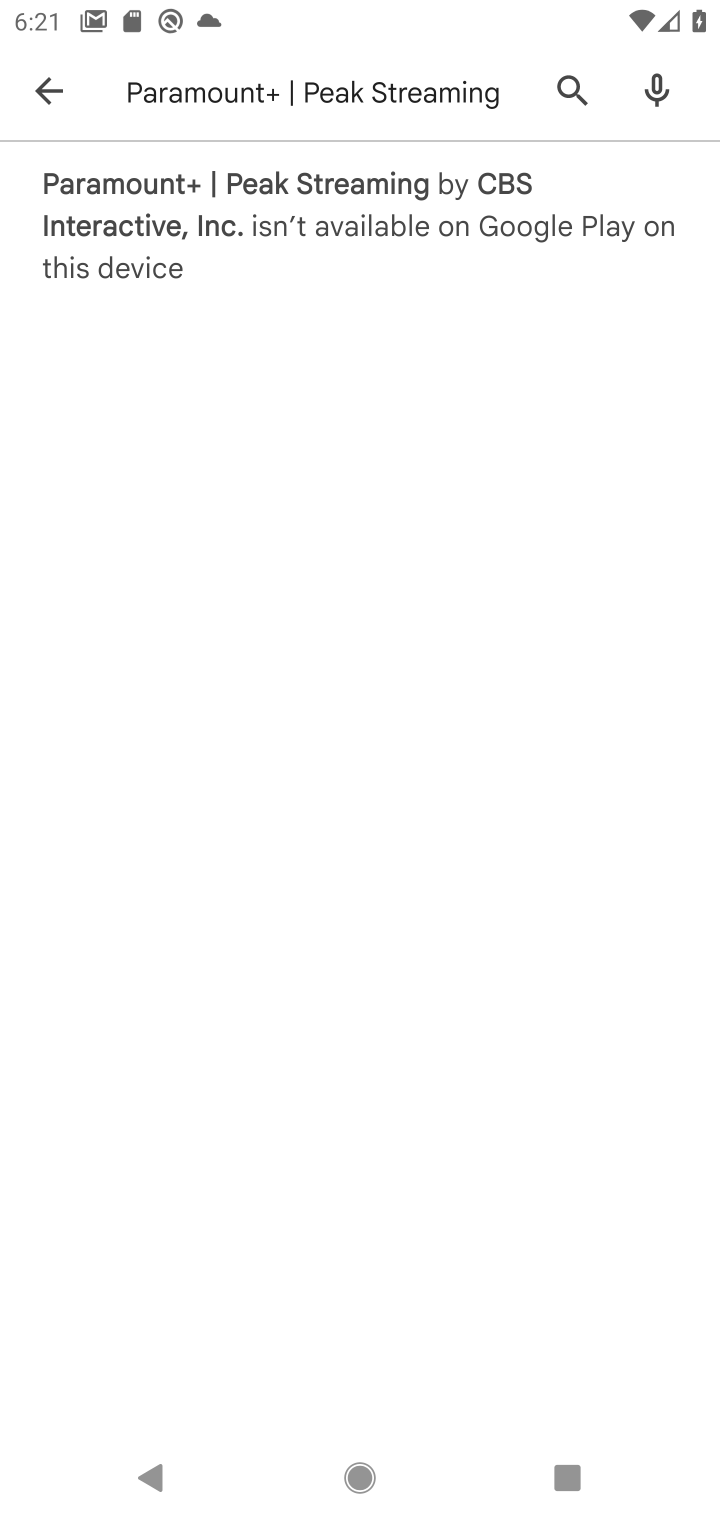
Step 29: click (197, 240)
Your task to perform on an android device: install app "Paramount+ | Peak Streaming" Image 30: 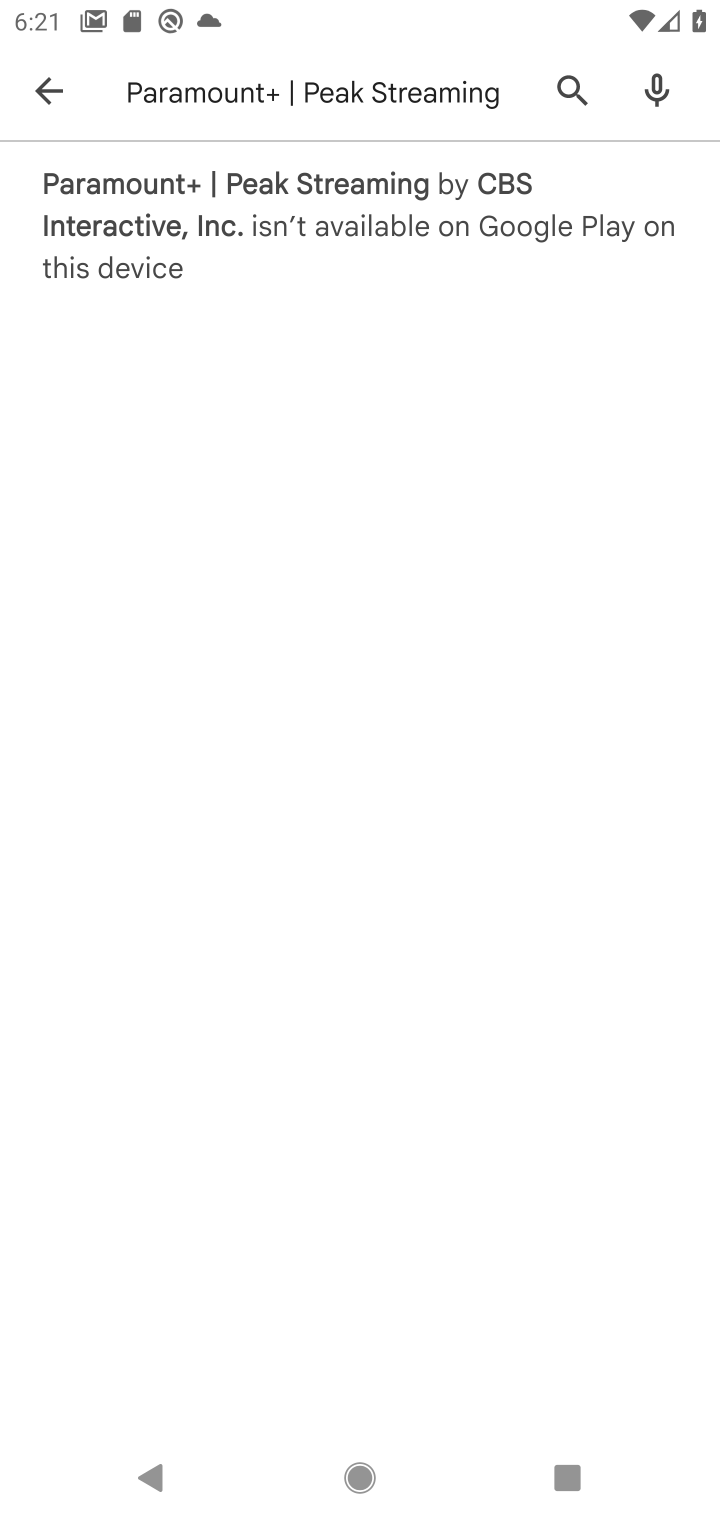
Step 30: drag from (331, 454) to (373, 132)
Your task to perform on an android device: install app "Paramount+ | Peak Streaming" Image 31: 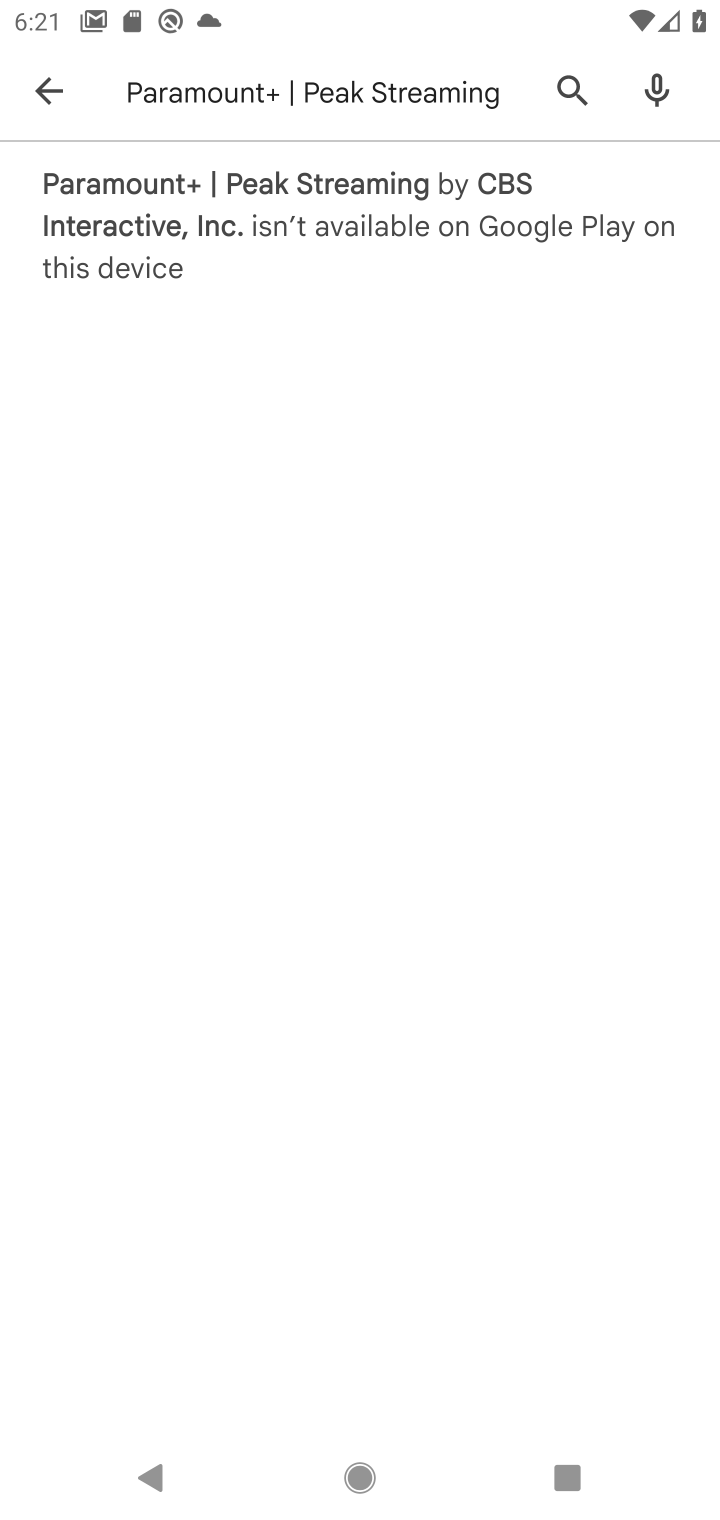
Step 31: click (158, 290)
Your task to perform on an android device: install app "Paramount+ | Peak Streaming" Image 32: 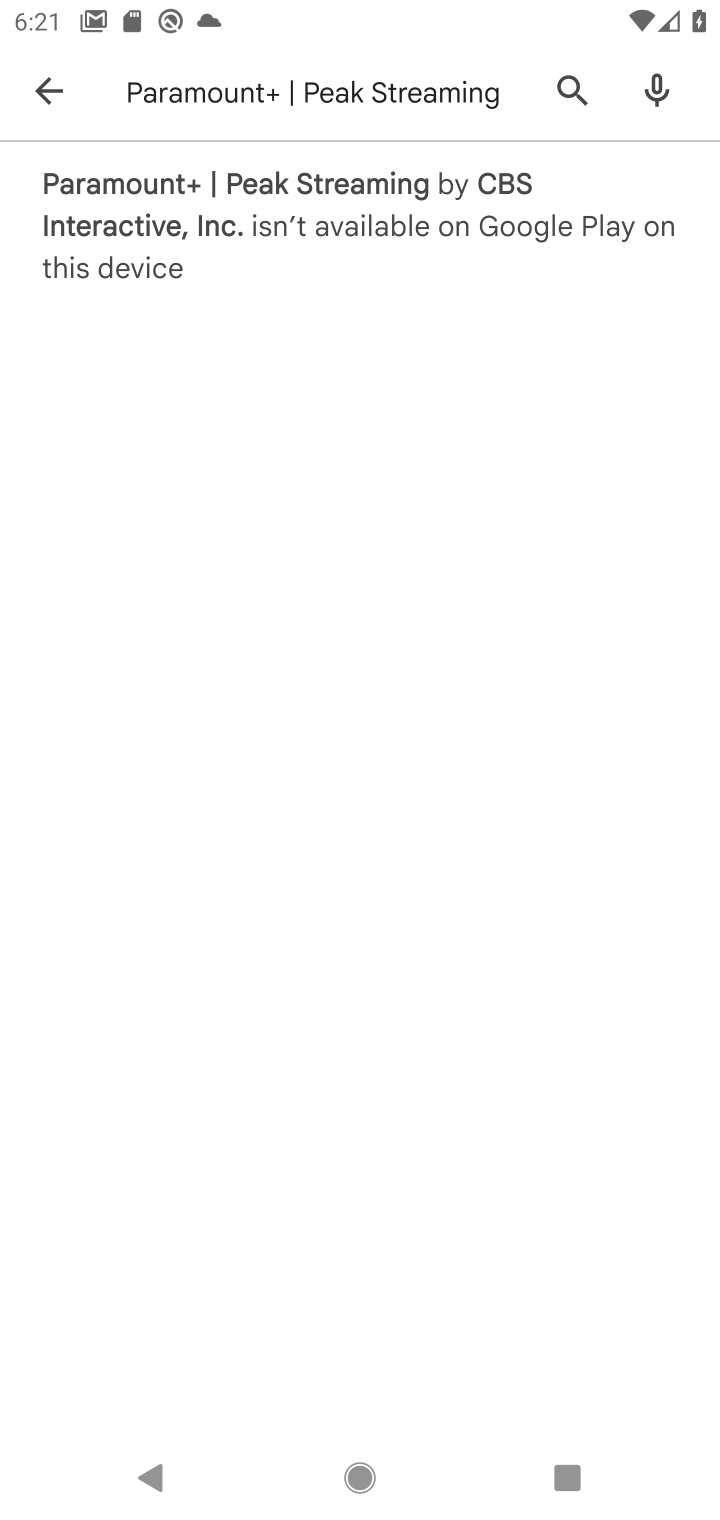
Step 32: click (194, 214)
Your task to perform on an android device: install app "Paramount+ | Peak Streaming" Image 33: 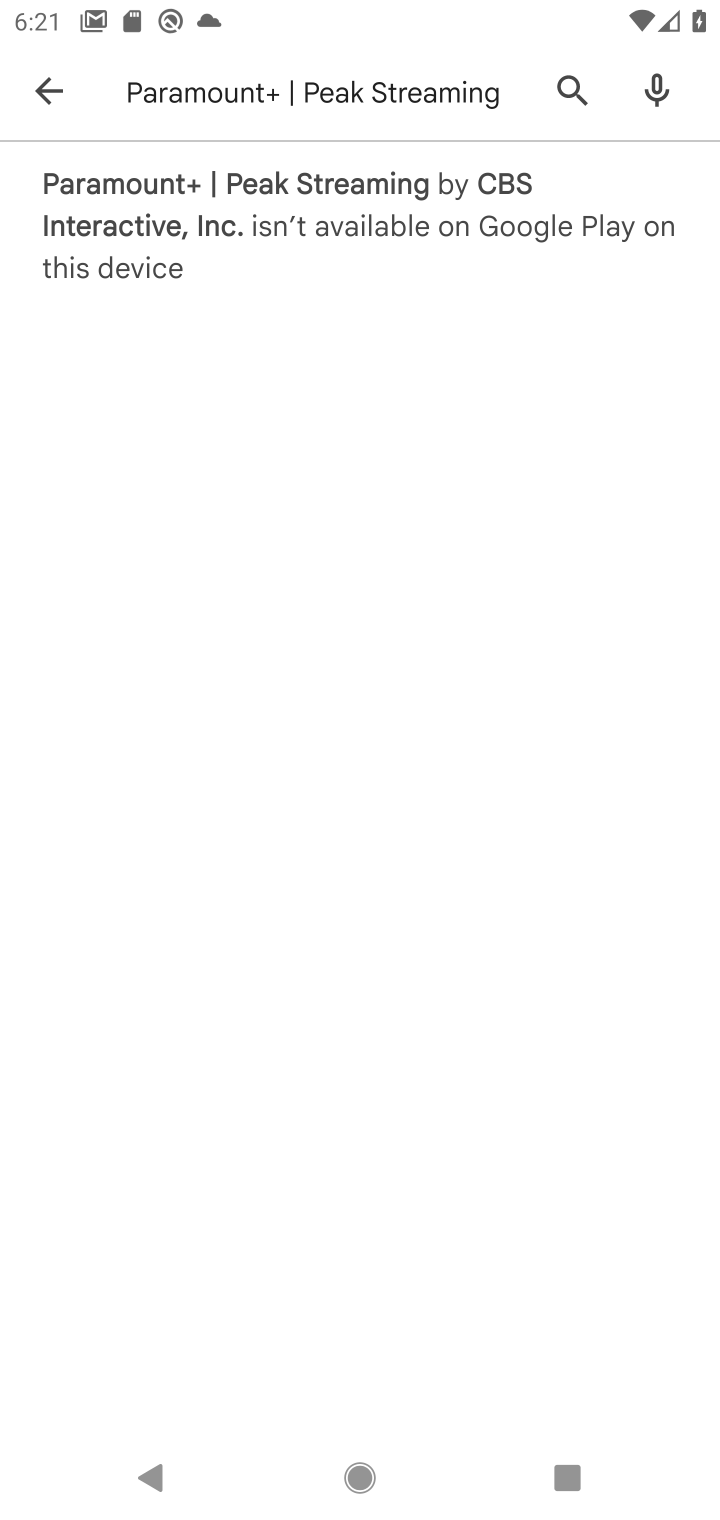
Step 33: task complete